Your task to perform on an android device: Search for the best fantasy books on Goodreads. Image 0: 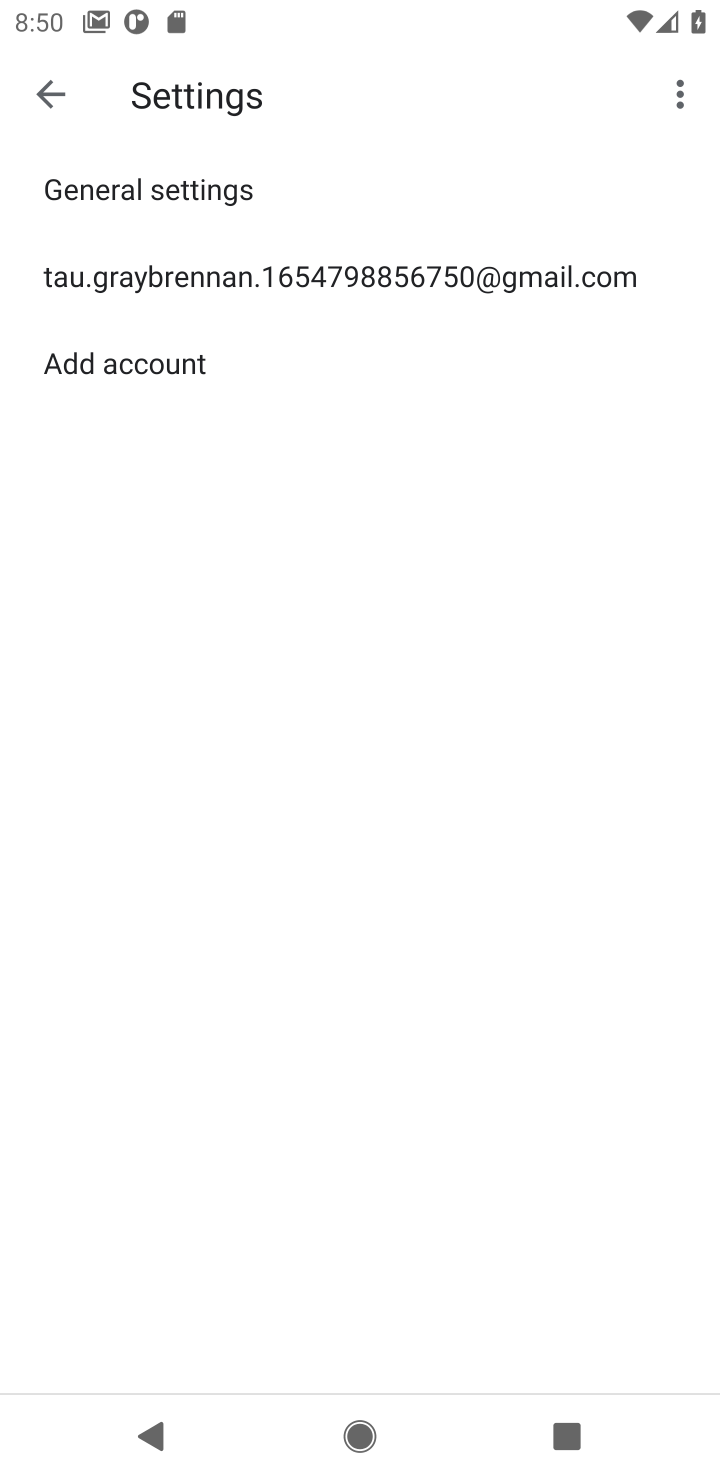
Step 0: press home button
Your task to perform on an android device: Search for the best fantasy books on Goodreads. Image 1: 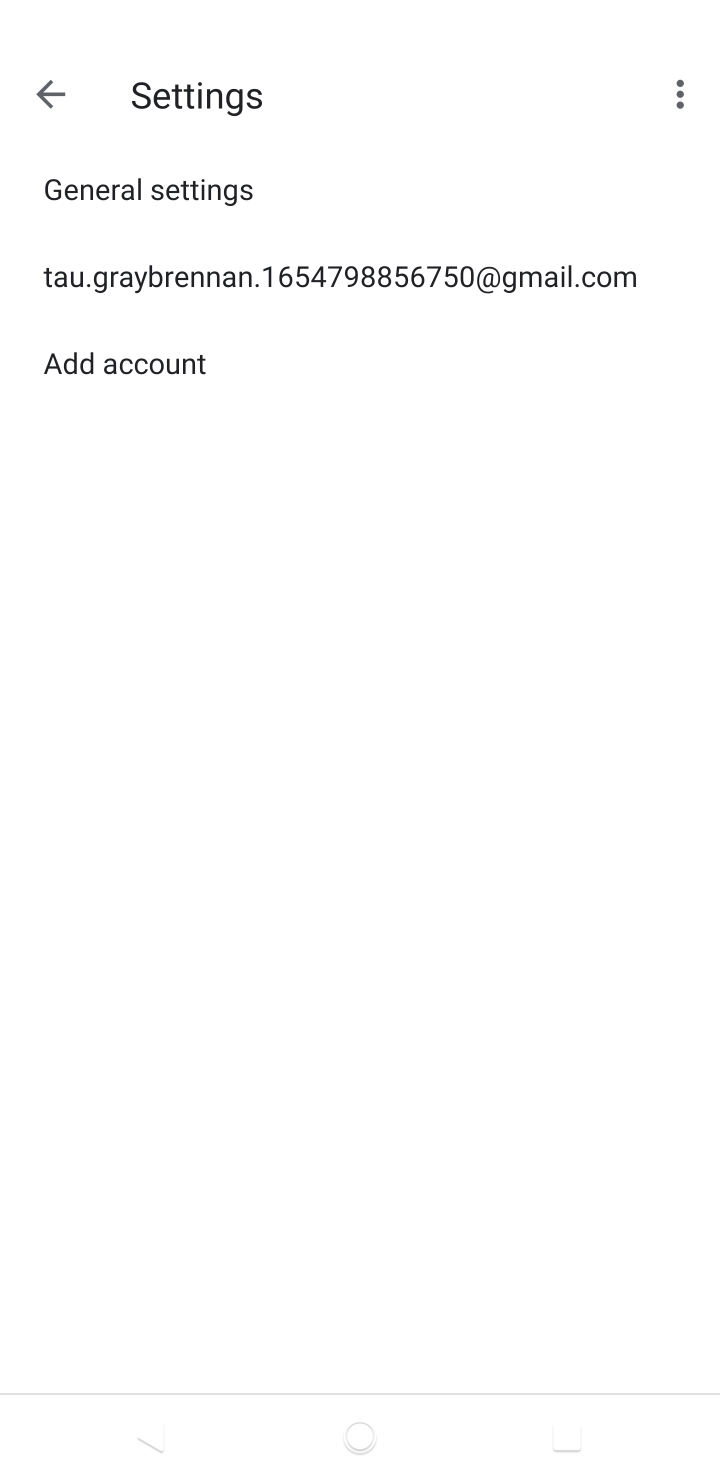
Step 1: press home button
Your task to perform on an android device: Search for the best fantasy books on Goodreads. Image 2: 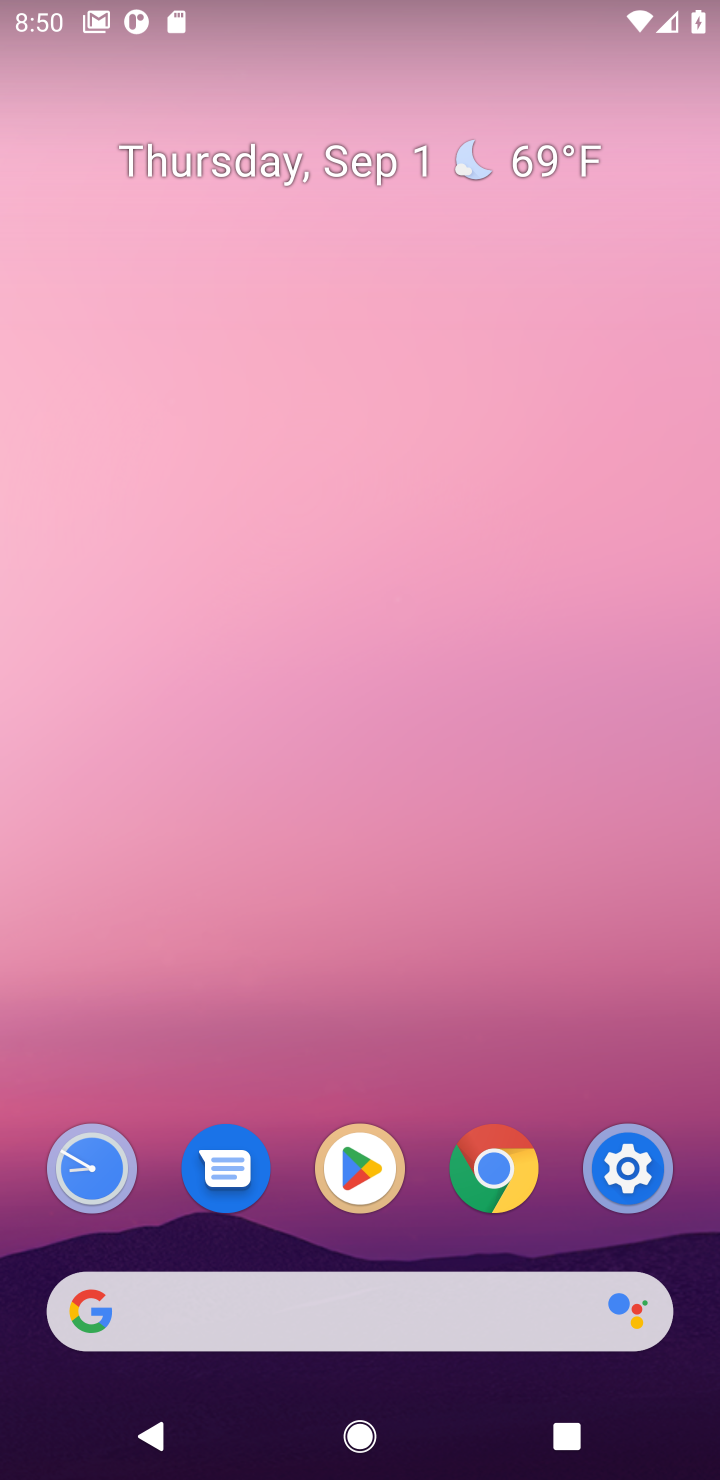
Step 2: click (380, 465)
Your task to perform on an android device: Search for the best fantasy books on Goodreads. Image 3: 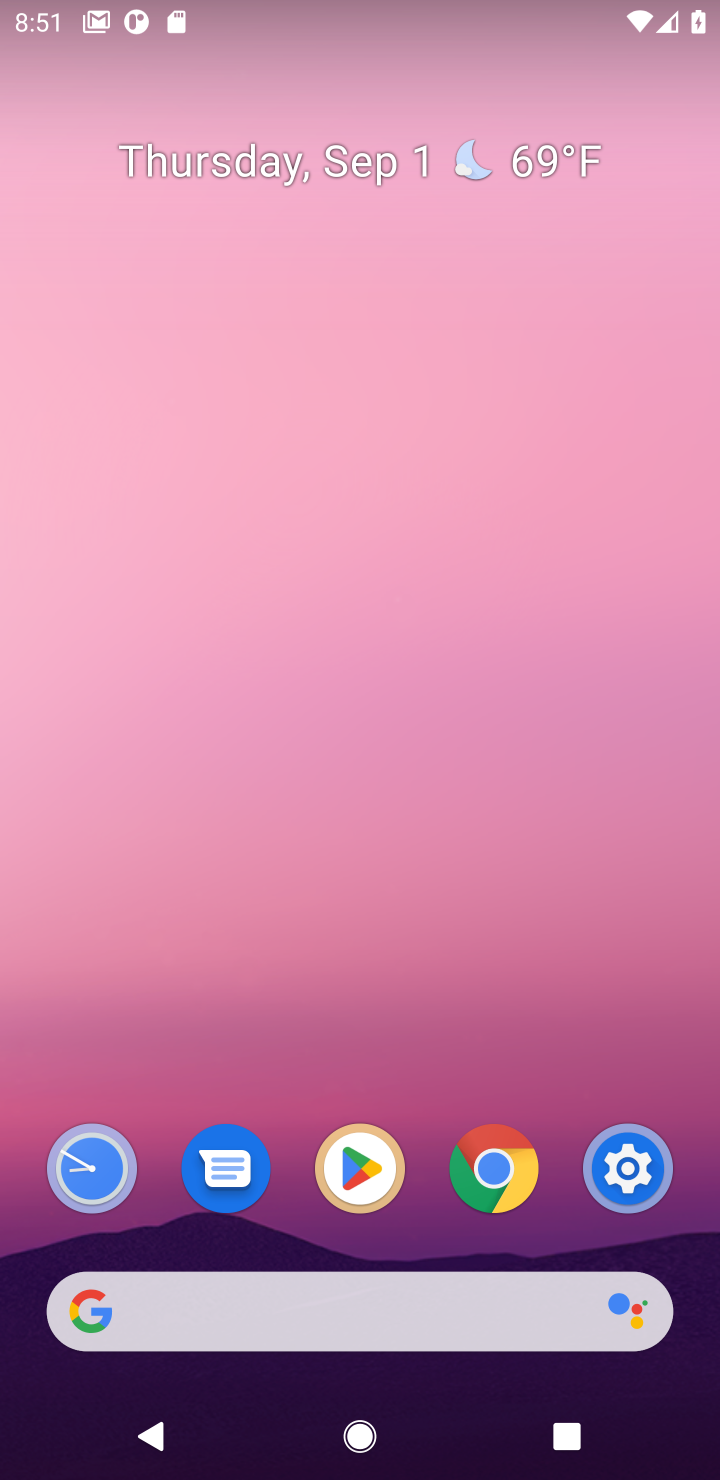
Step 3: click (315, 764)
Your task to perform on an android device: Search for the best fantasy books on Goodreads. Image 4: 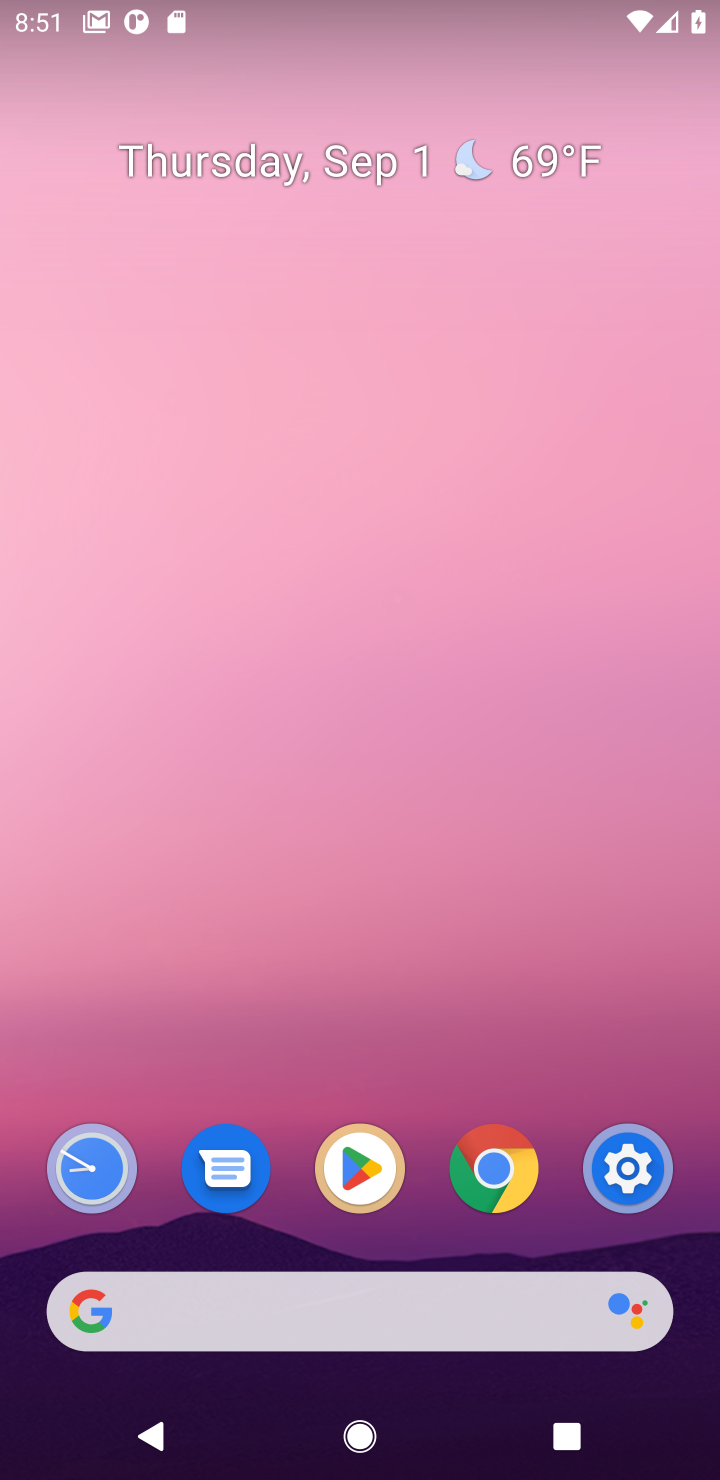
Step 4: drag from (347, 275) to (442, 290)
Your task to perform on an android device: Search for the best fantasy books on Goodreads. Image 5: 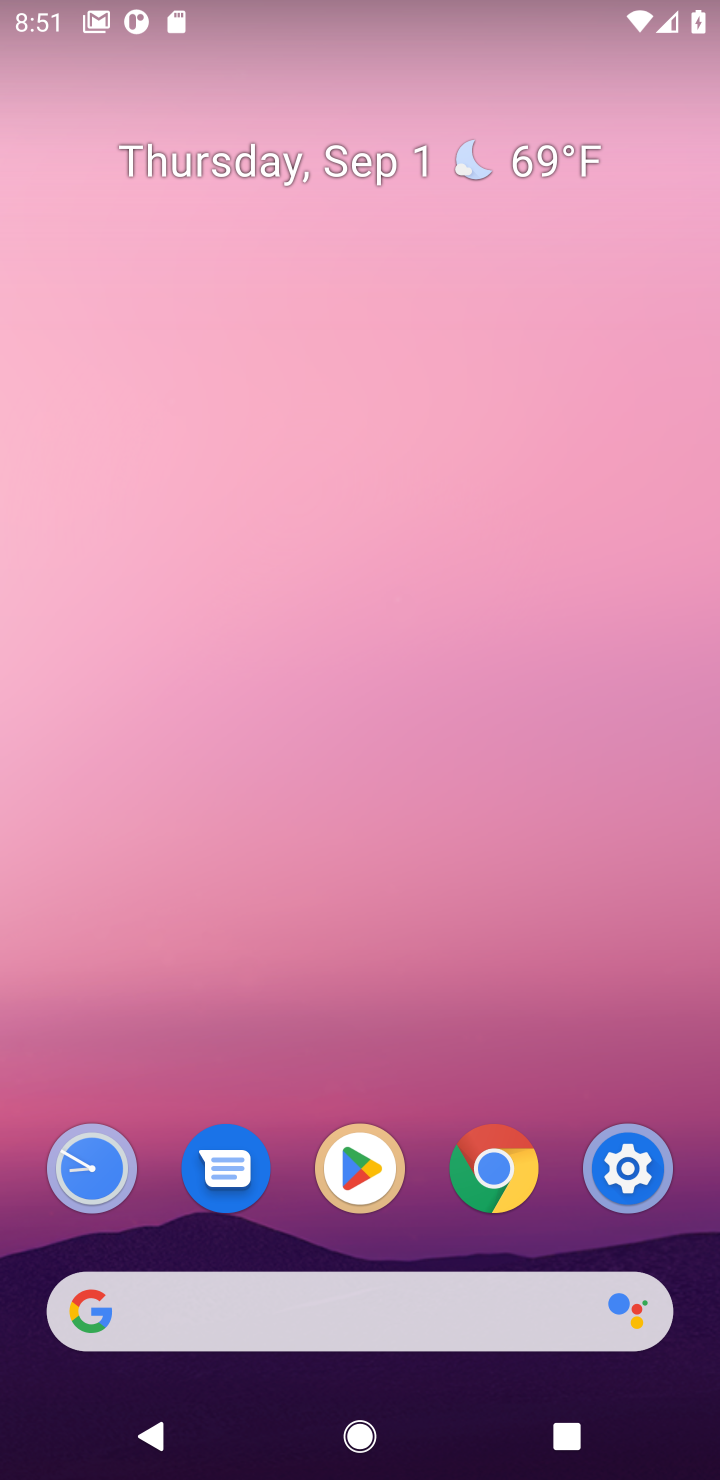
Step 5: click (359, 526)
Your task to perform on an android device: Search for the best fantasy books on Goodreads. Image 6: 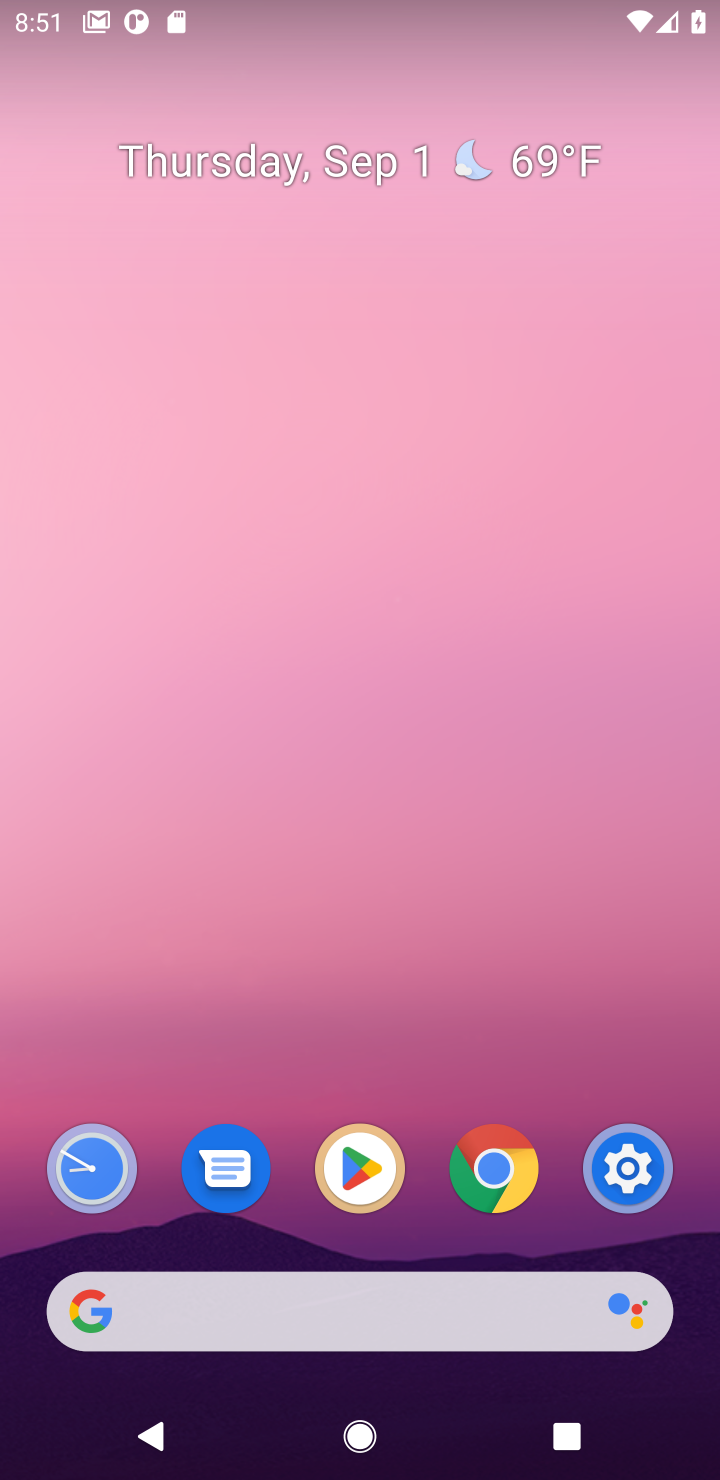
Step 6: drag from (293, 1225) to (380, 359)
Your task to perform on an android device: Search for the best fantasy books on Goodreads. Image 7: 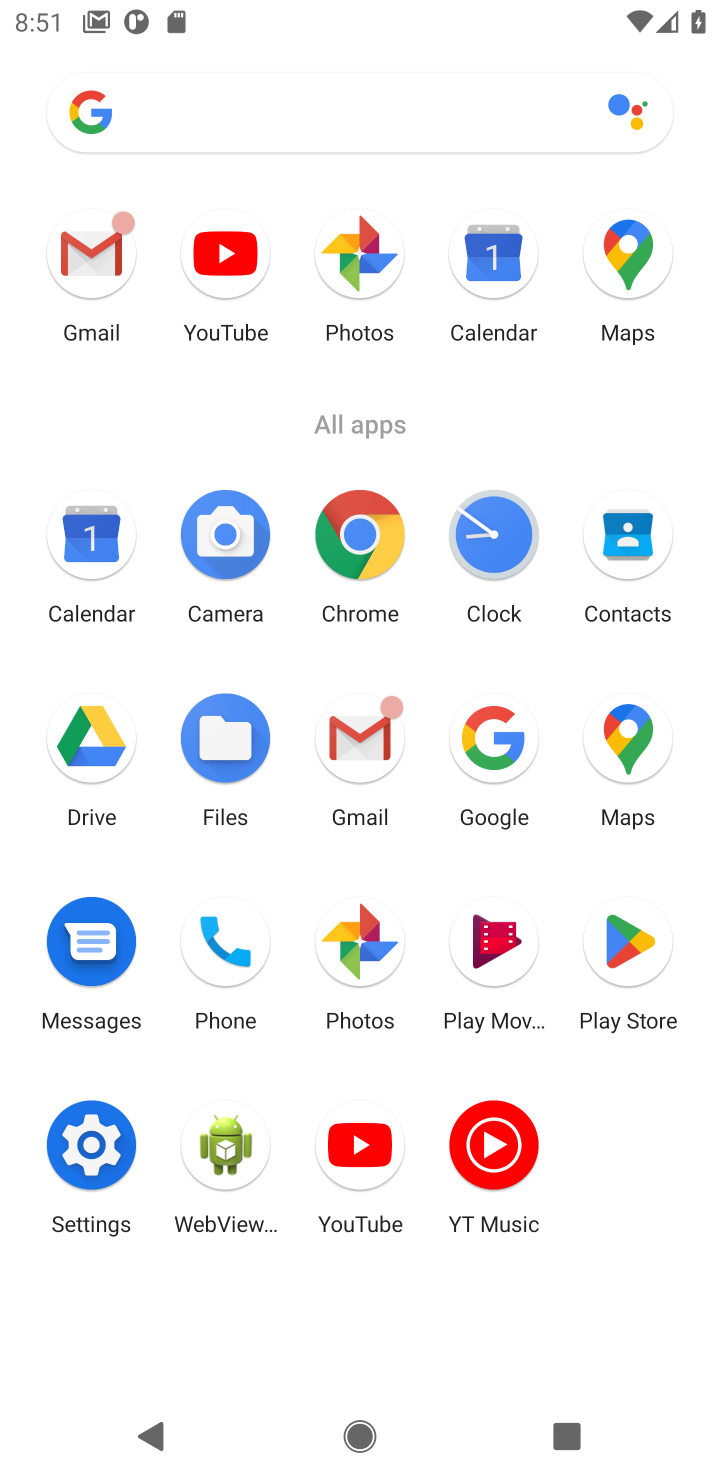
Step 7: click (492, 716)
Your task to perform on an android device: Search for the best fantasy books on Goodreads. Image 8: 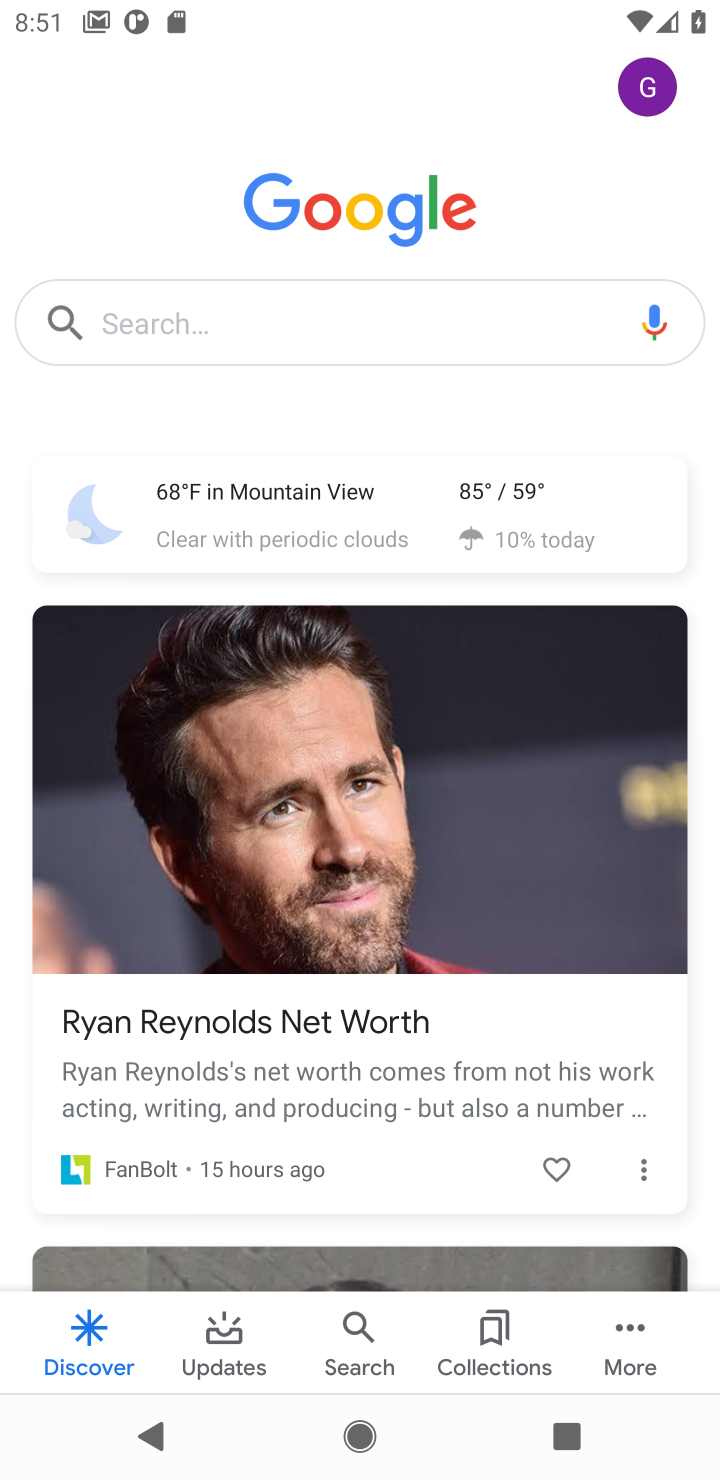
Step 8: click (233, 325)
Your task to perform on an android device: Search for the best fantasy books on Goodreads. Image 9: 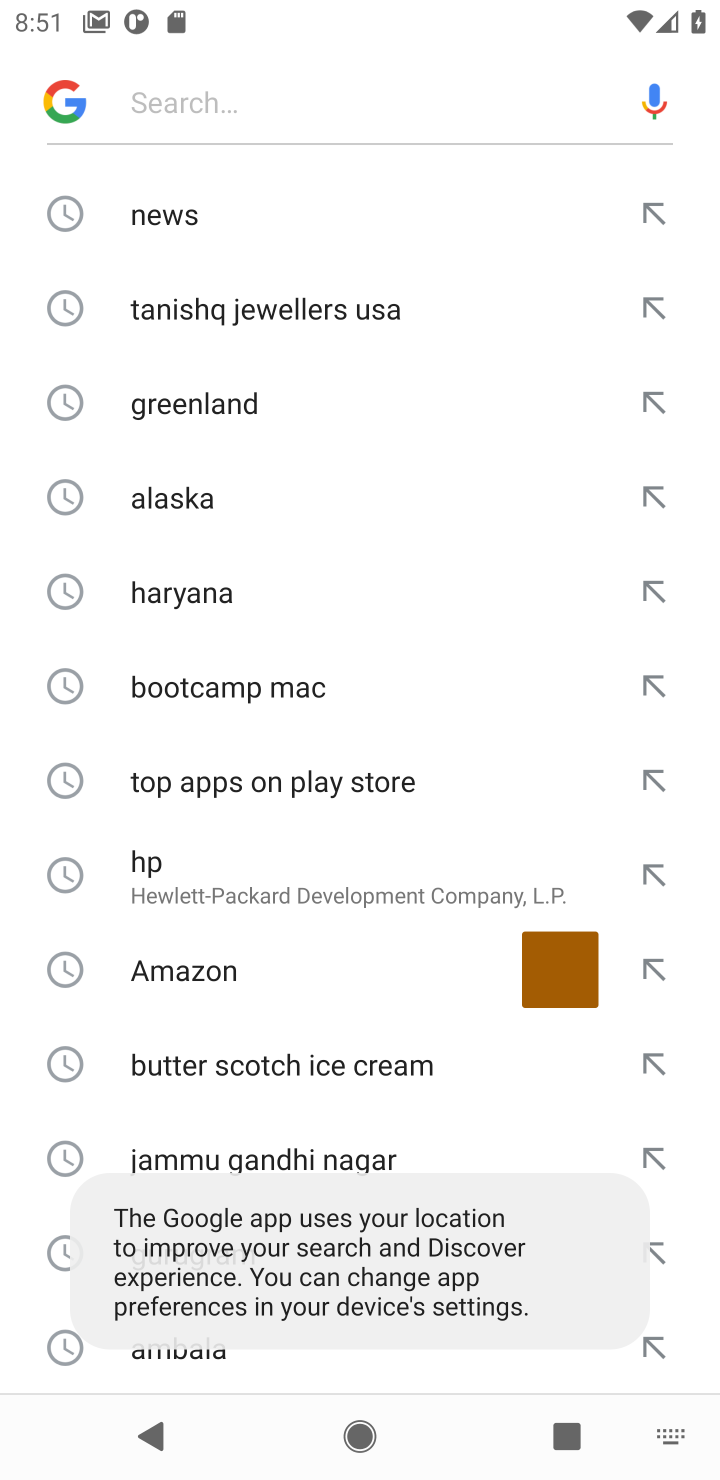
Step 9: type " Goodreads "
Your task to perform on an android device: Search for the best fantasy books on Goodreads. Image 10: 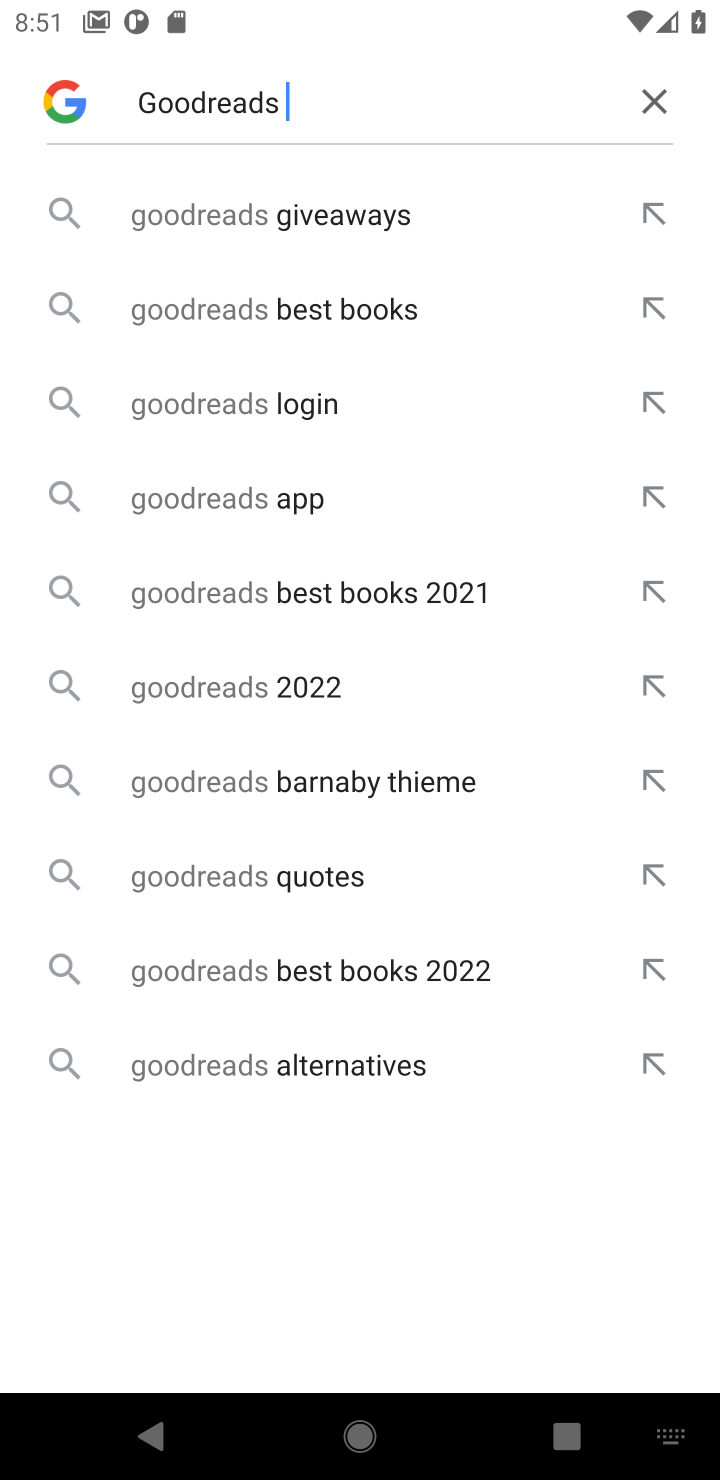
Step 10: click (320, 321)
Your task to perform on an android device: Search for the best fantasy books on Goodreads. Image 11: 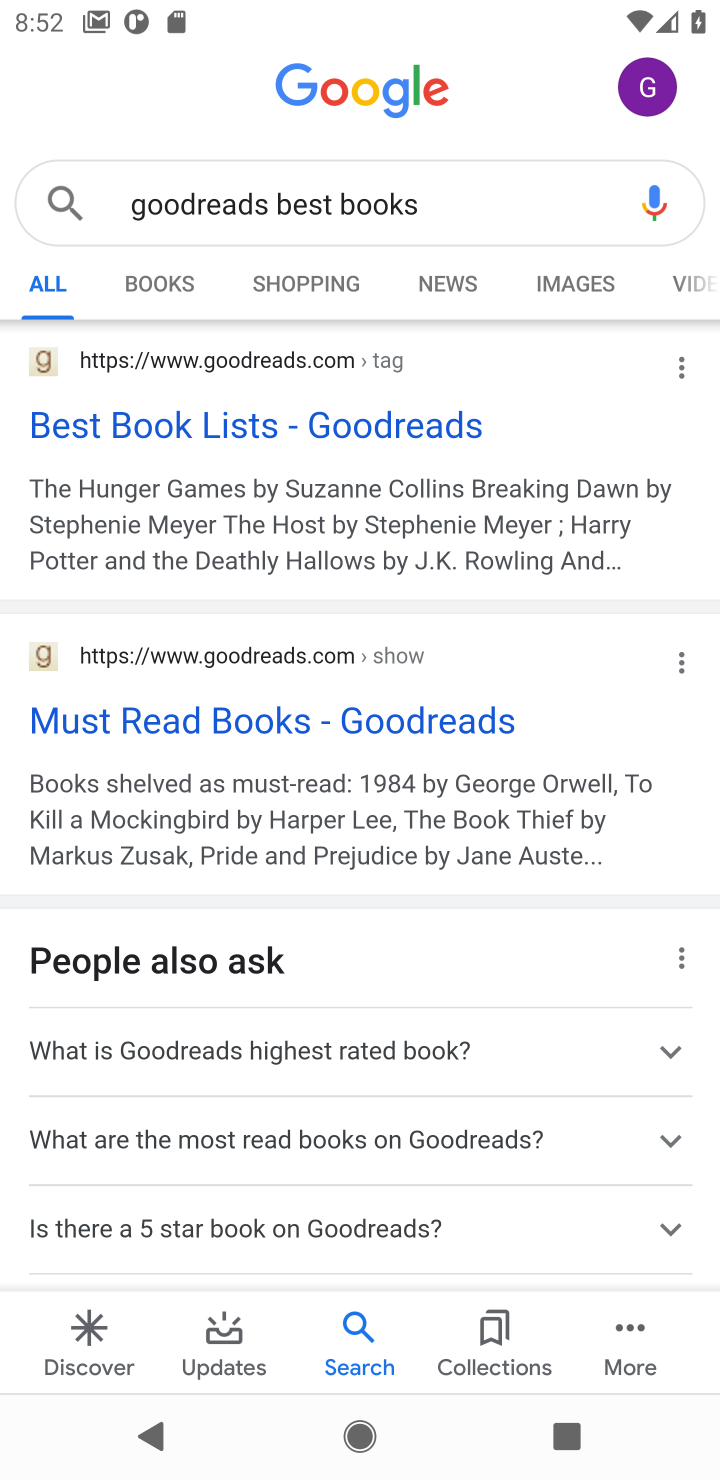
Step 11: click (278, 410)
Your task to perform on an android device: Search for the best fantasy books on Goodreads. Image 12: 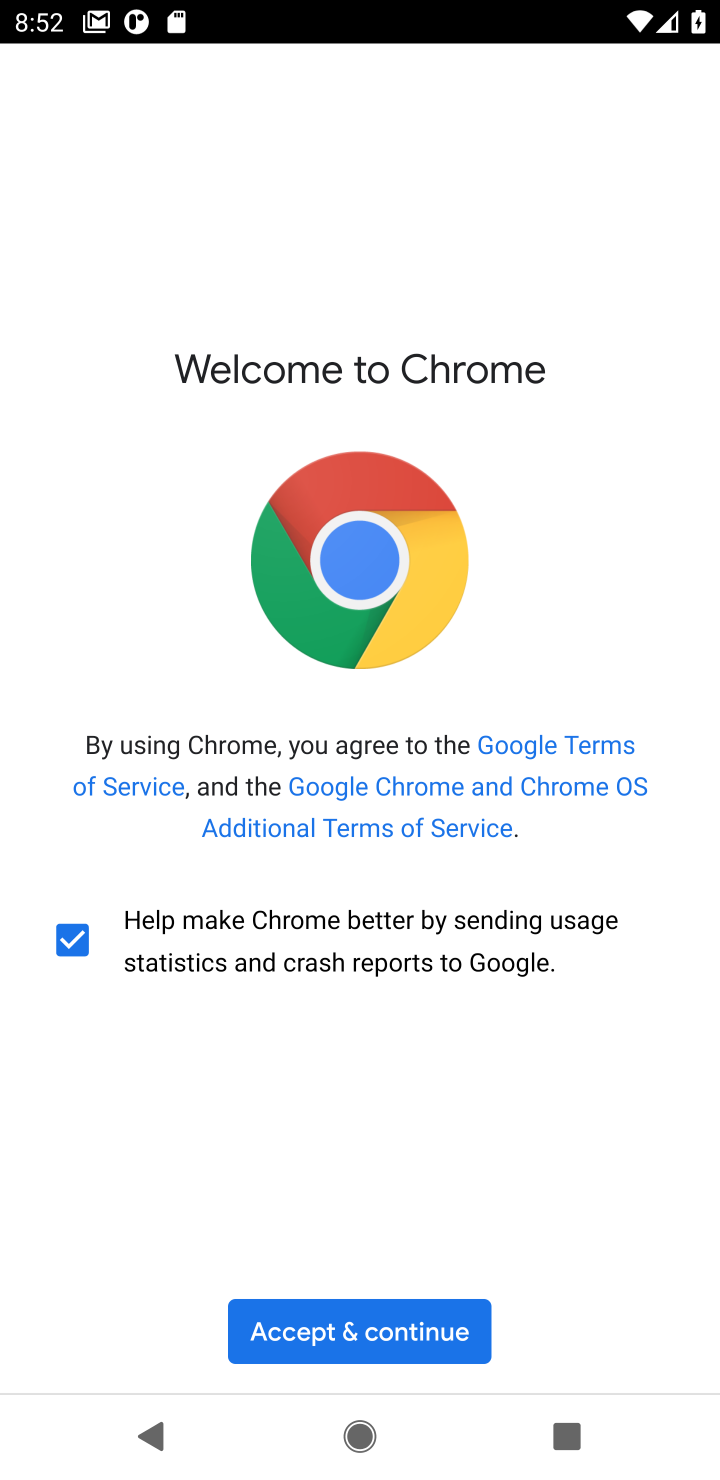
Step 12: click (359, 1339)
Your task to perform on an android device: Search for the best fantasy books on Goodreads. Image 13: 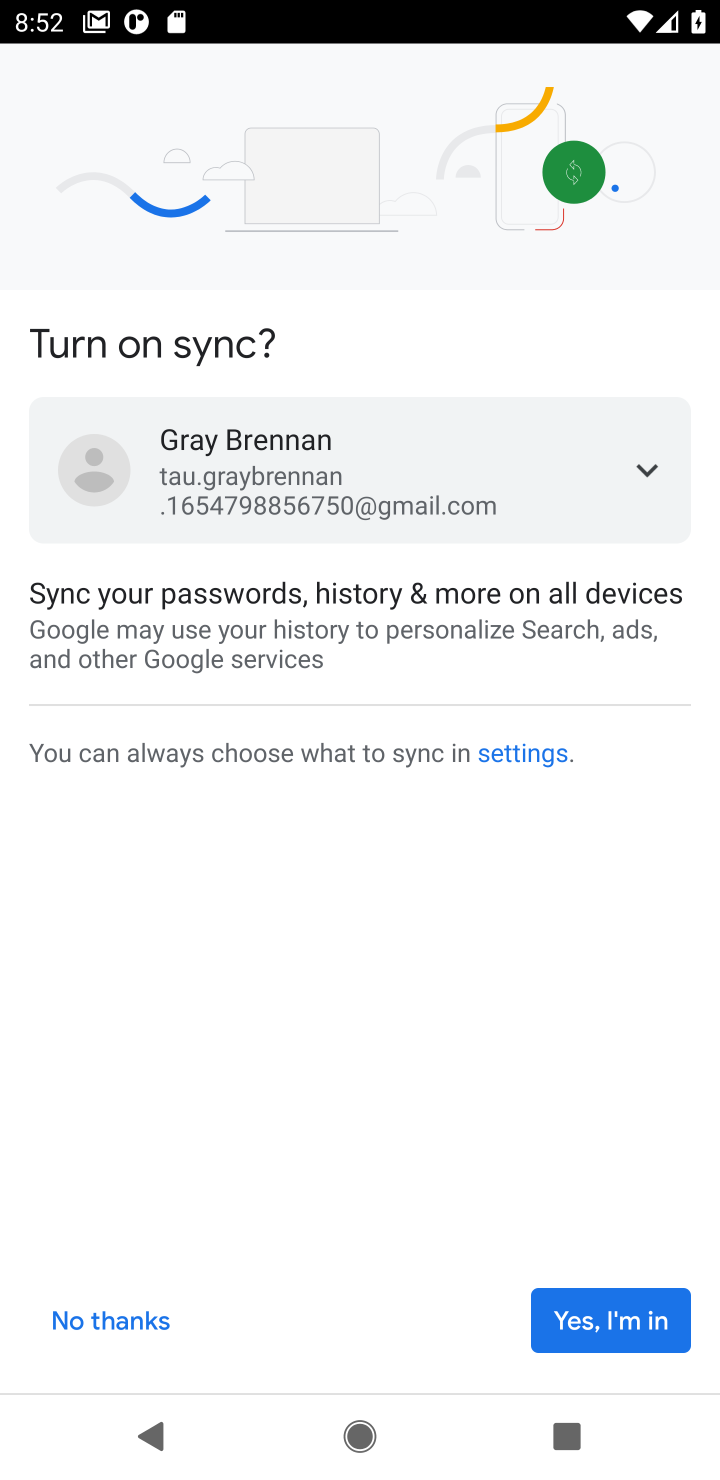
Step 13: click (607, 1313)
Your task to perform on an android device: Search for the best fantasy books on Goodreads. Image 14: 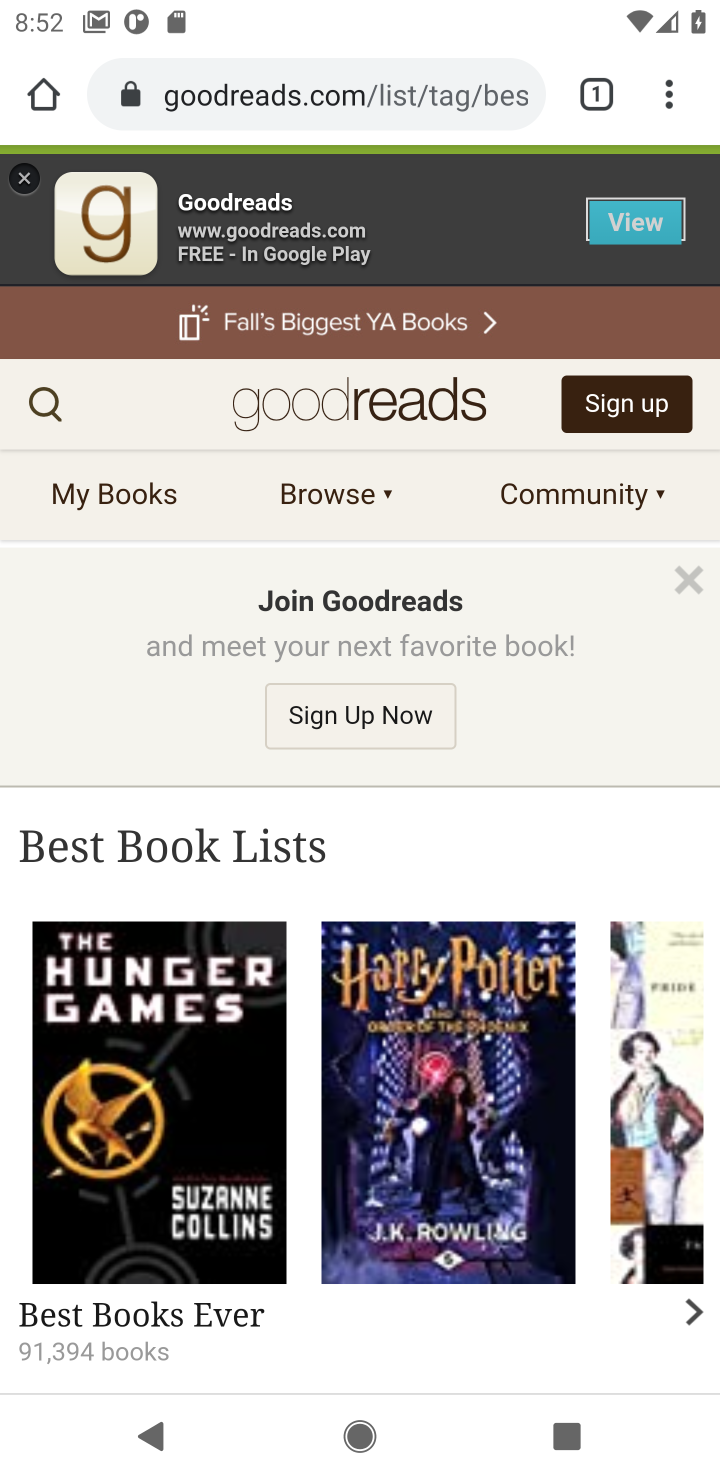
Step 14: click (696, 584)
Your task to perform on an android device: Search for the best fantasy books on Goodreads. Image 15: 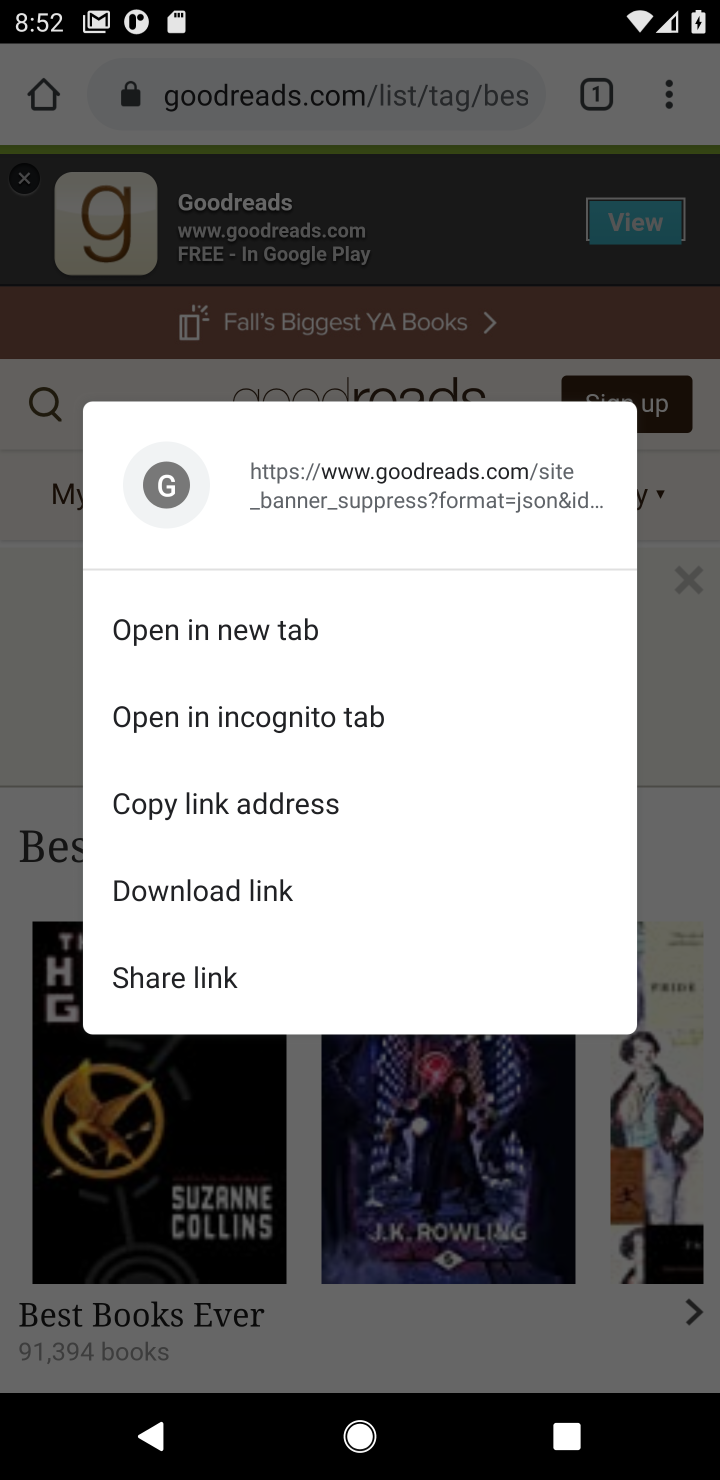
Step 15: click (17, 533)
Your task to perform on an android device: Search for the best fantasy books on Goodreads. Image 16: 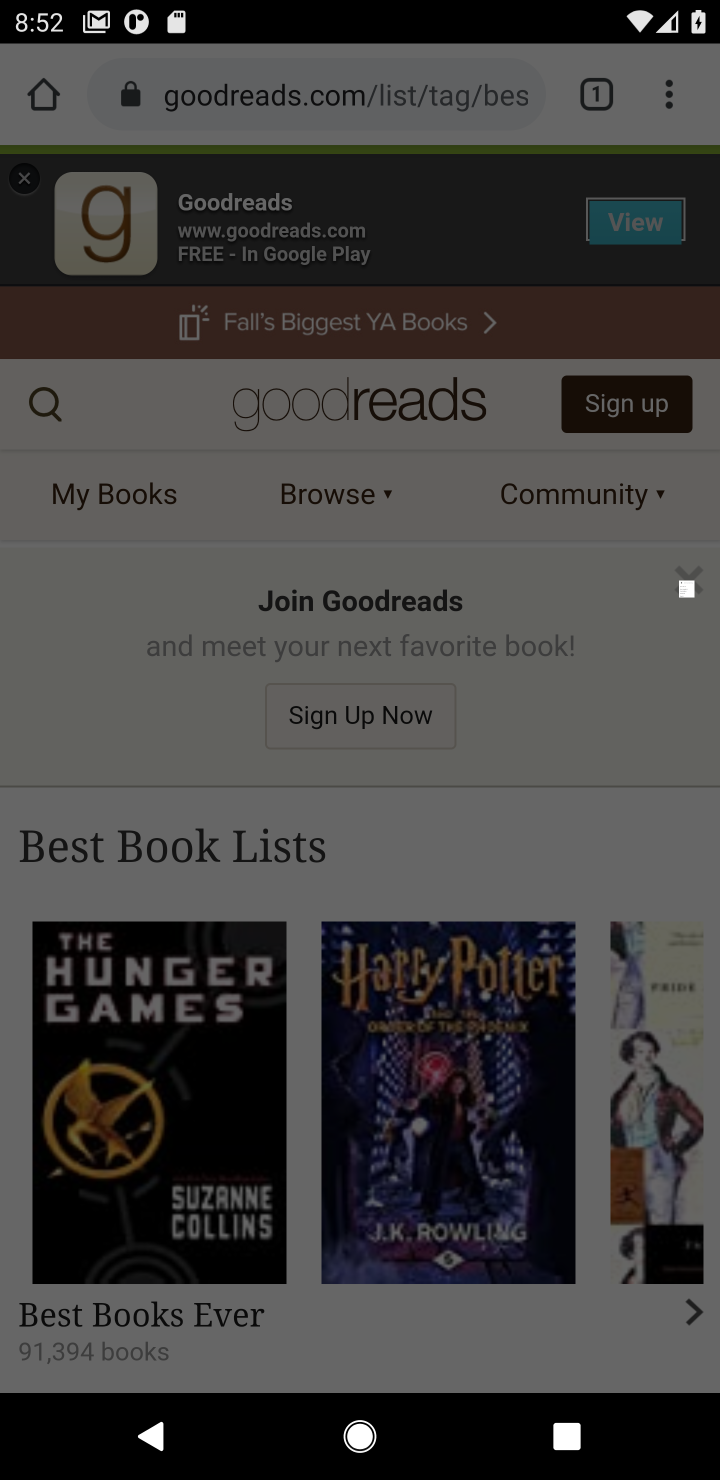
Step 16: click (17, 536)
Your task to perform on an android device: Search for the best fantasy books on Goodreads. Image 17: 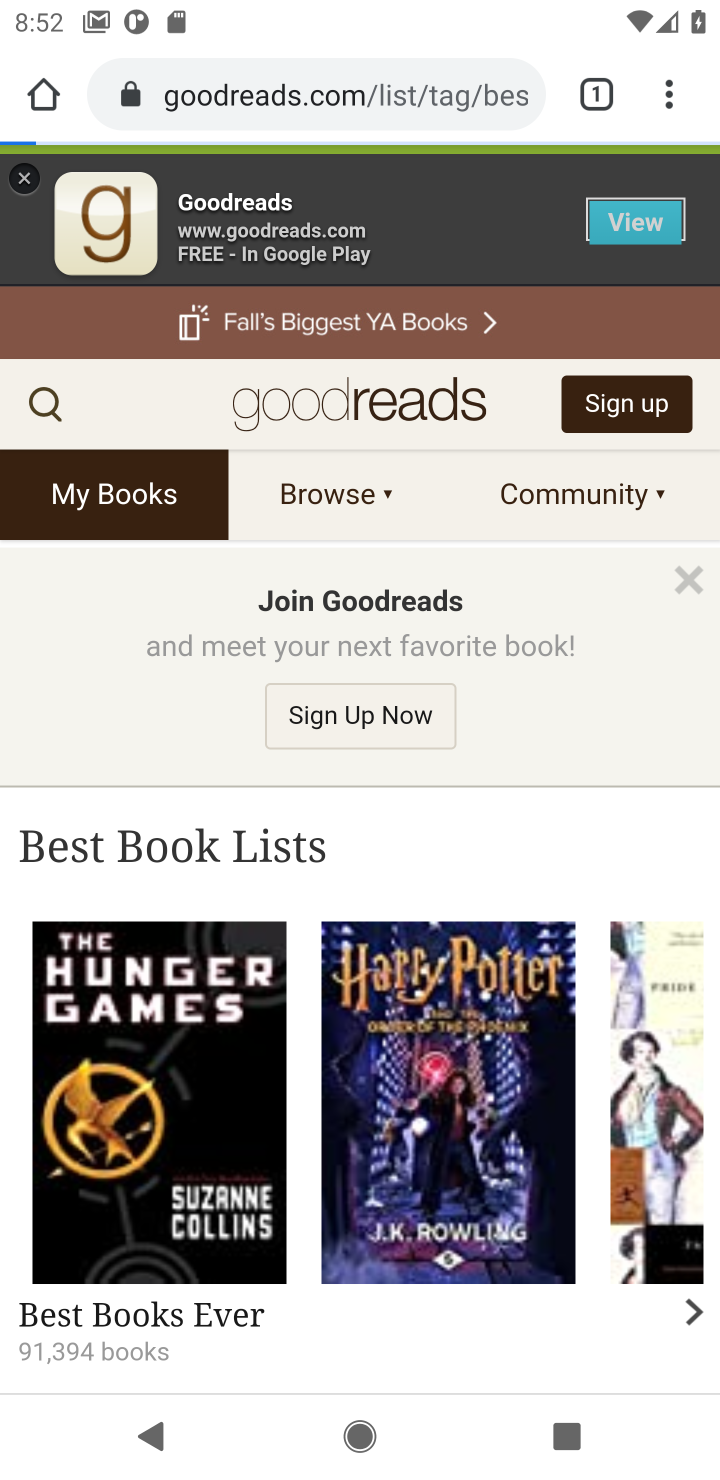
Step 17: click (49, 415)
Your task to perform on an android device: Search for the best fantasy books on Goodreads. Image 18: 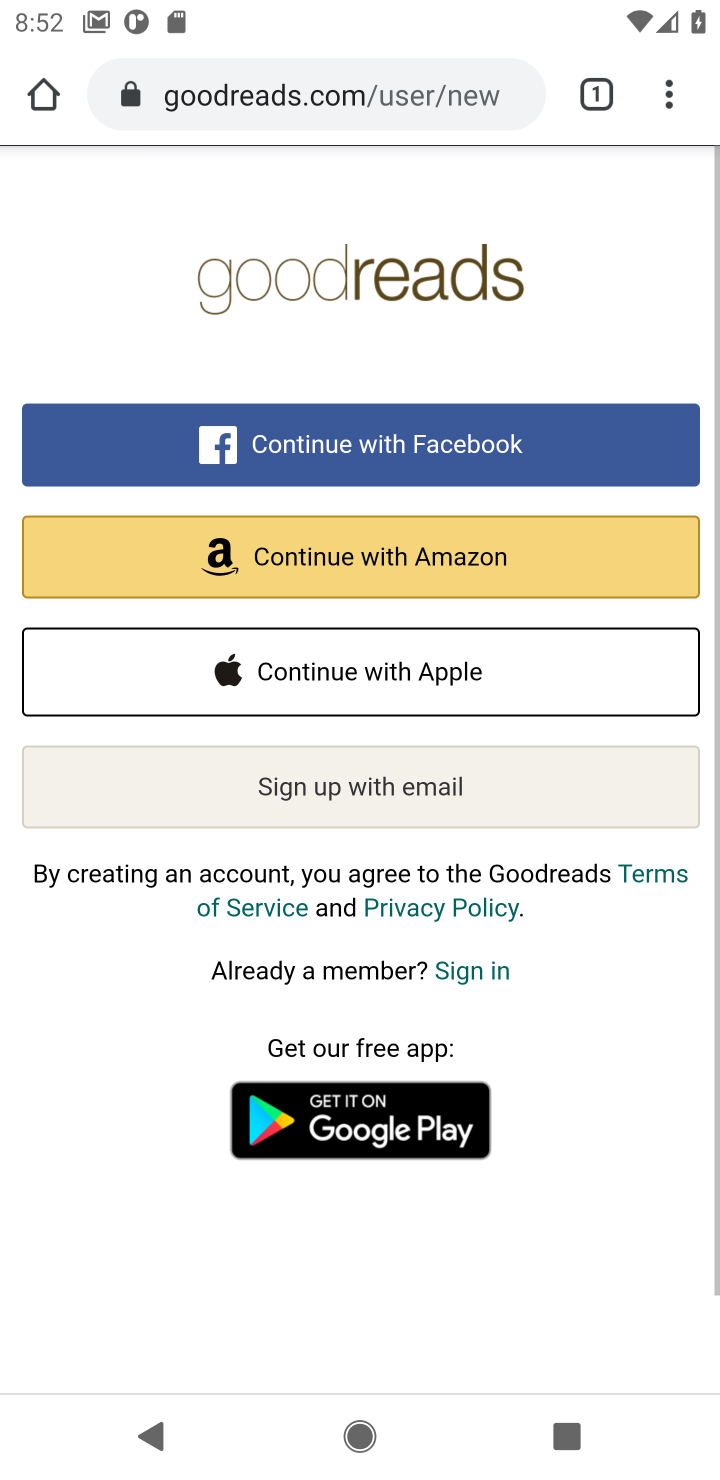
Step 18: click (49, 407)
Your task to perform on an android device: Search for the best fantasy books on Goodreads. Image 19: 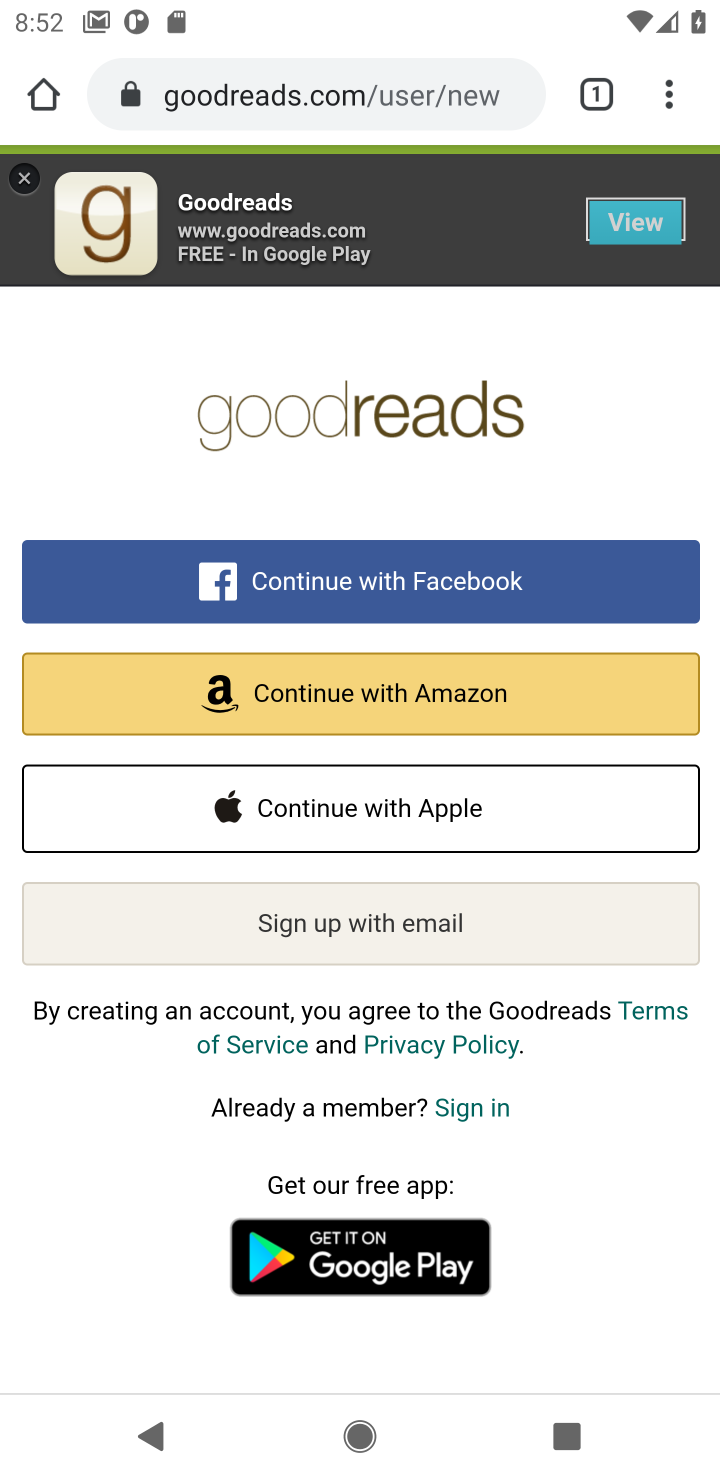
Step 19: click (34, 180)
Your task to perform on an android device: Search for the best fantasy books on Goodreads. Image 20: 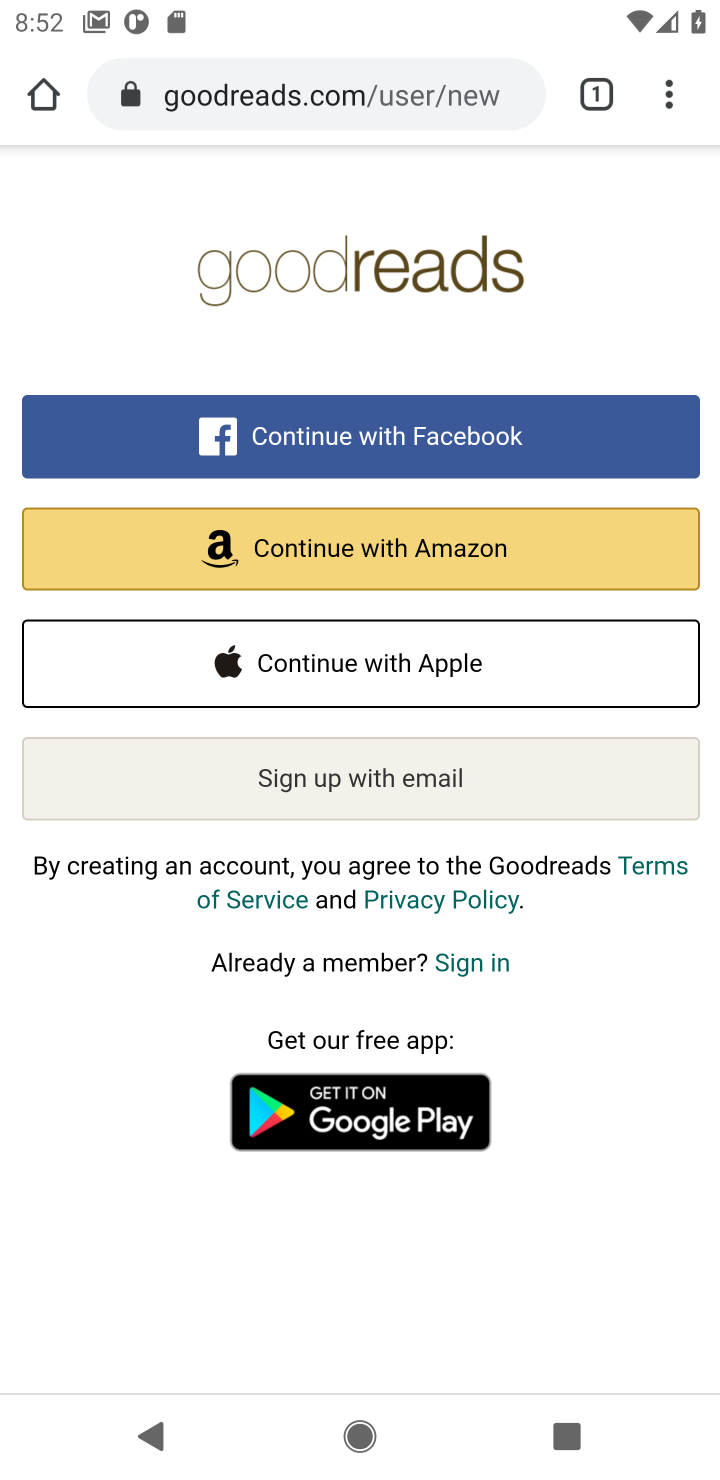
Step 20: press back button
Your task to perform on an android device: Search for the best fantasy books on Goodreads. Image 21: 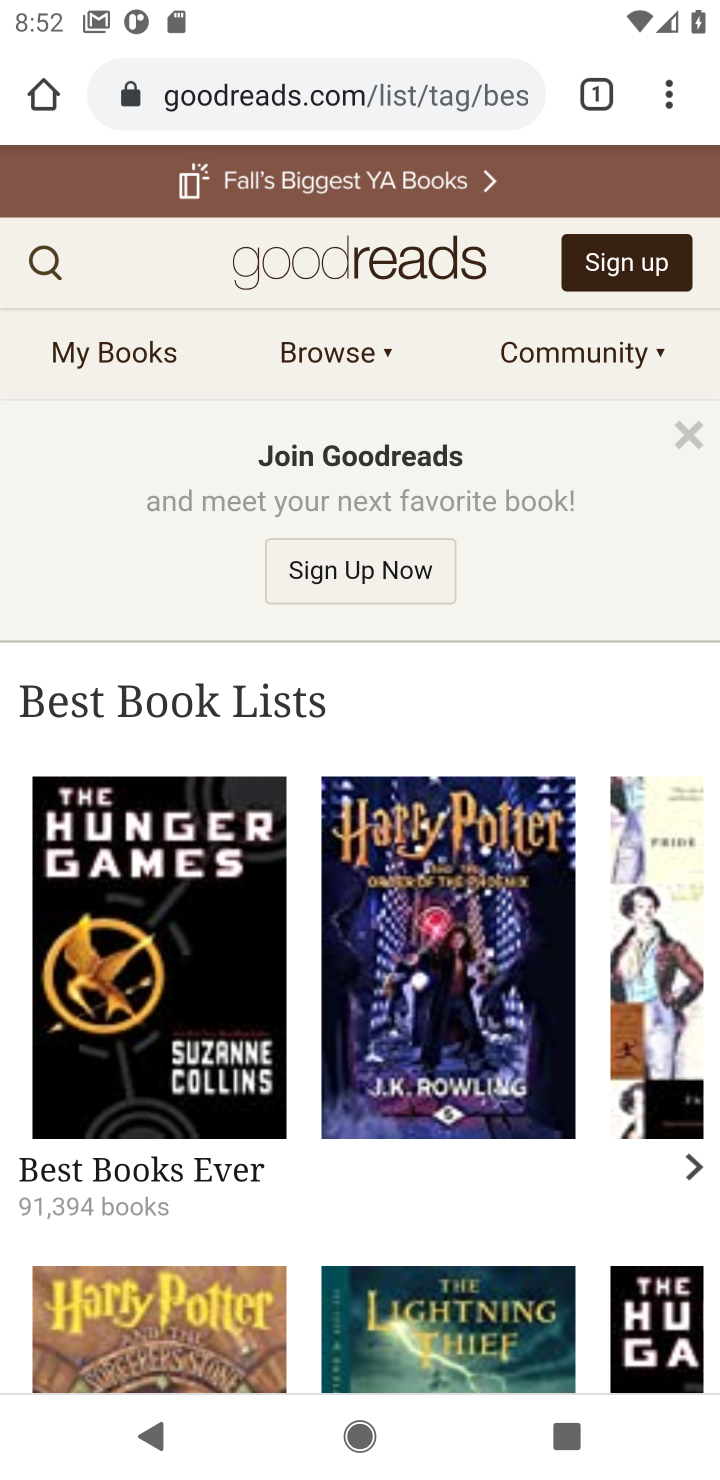
Step 21: click (32, 259)
Your task to perform on an android device: Search for the best fantasy books on Goodreads. Image 22: 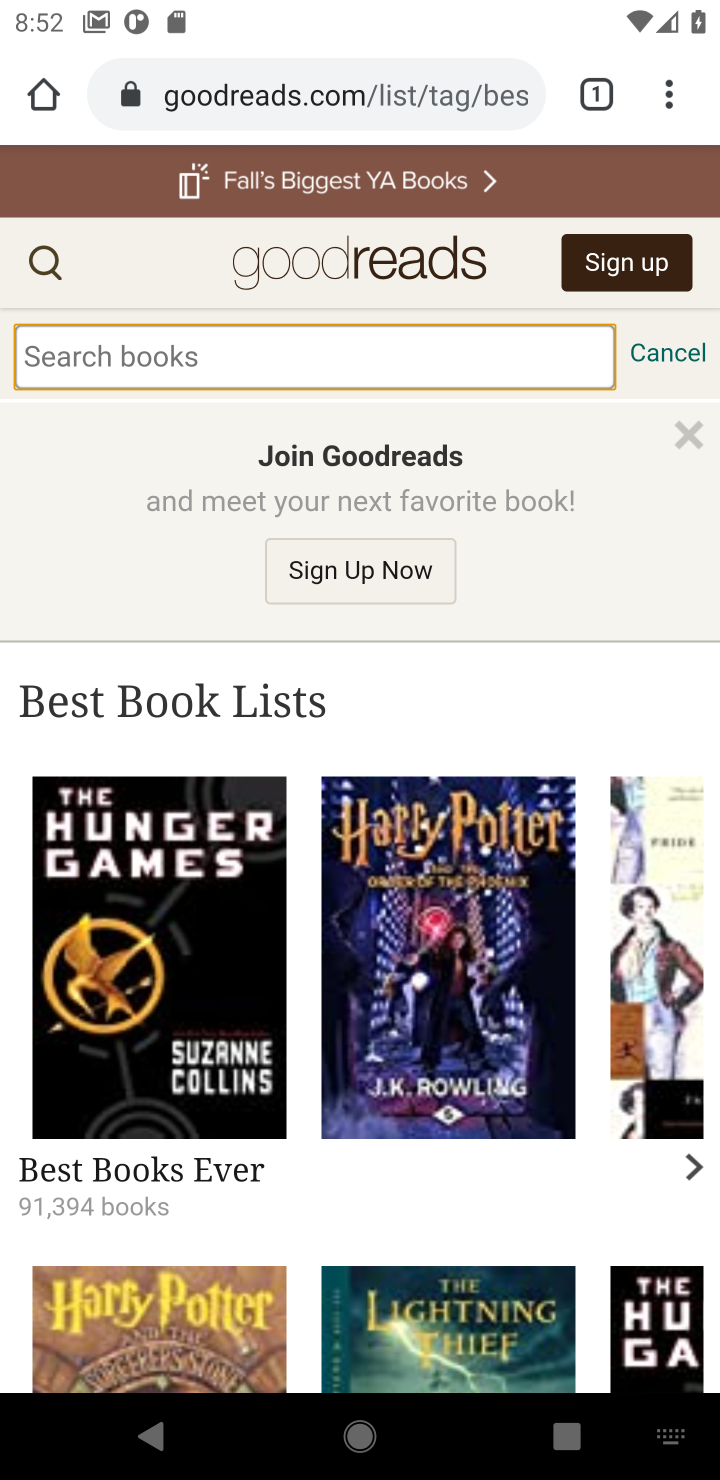
Step 22: click (342, 351)
Your task to perform on an android device: Search for the best fantasy books on Goodreads. Image 23: 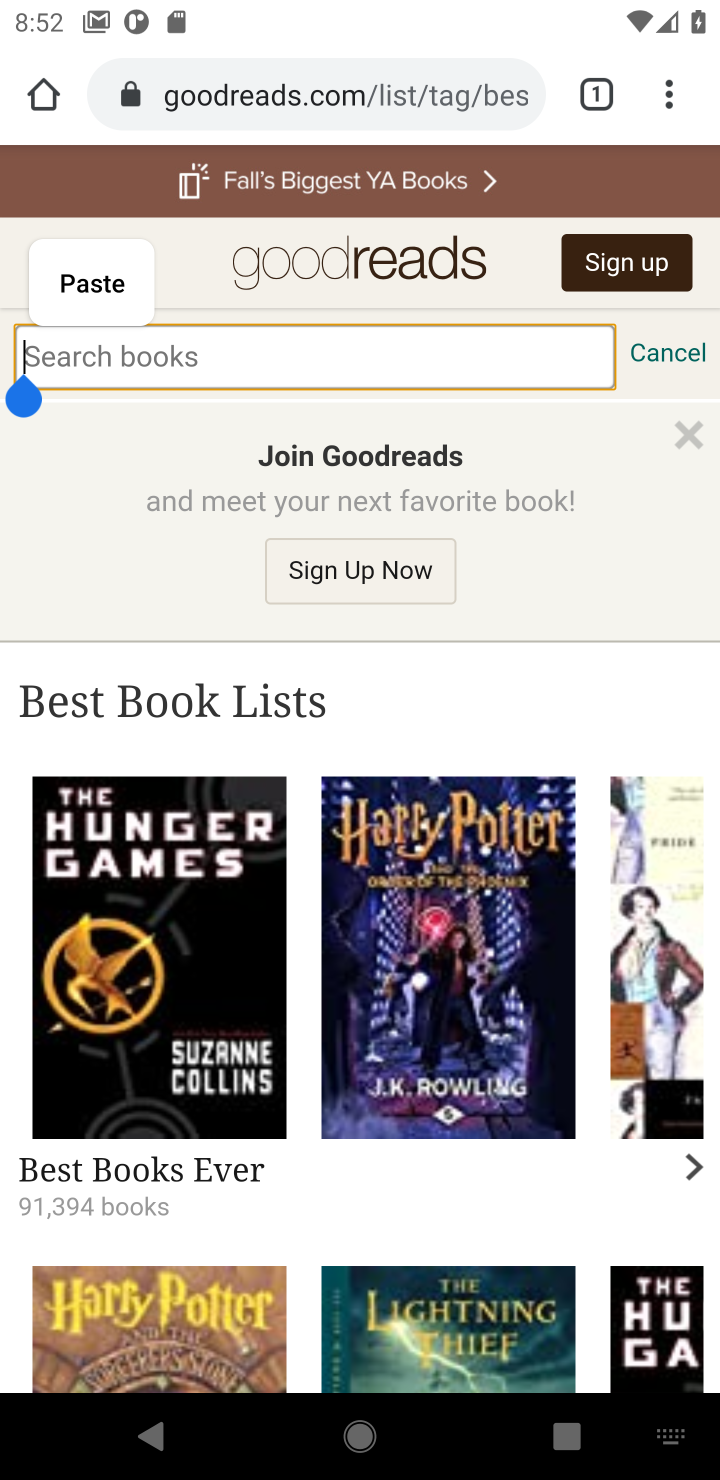
Step 23: type "he best fantasy books  "
Your task to perform on an android device: Search for the best fantasy books on Goodreads. Image 24: 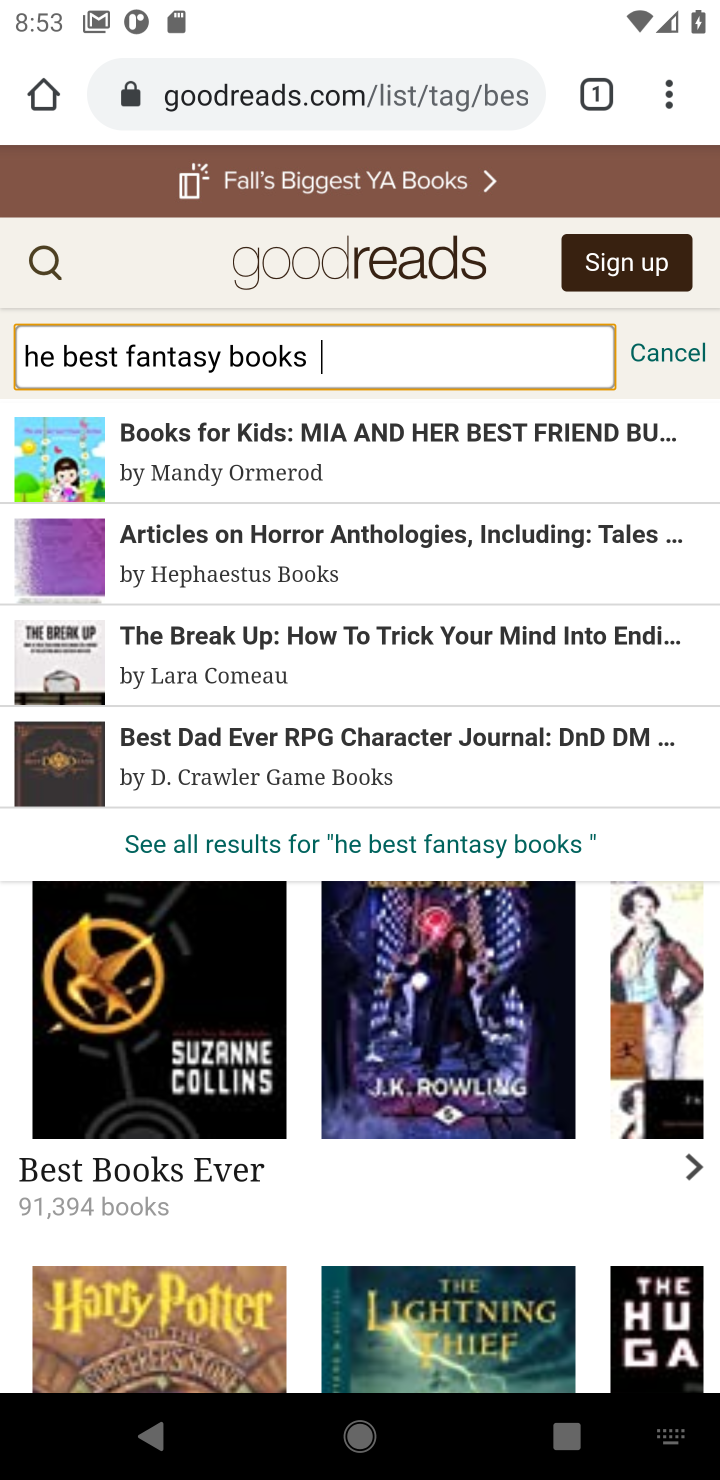
Step 24: click (427, 333)
Your task to perform on an android device: Search for the best fantasy books on Goodreads. Image 25: 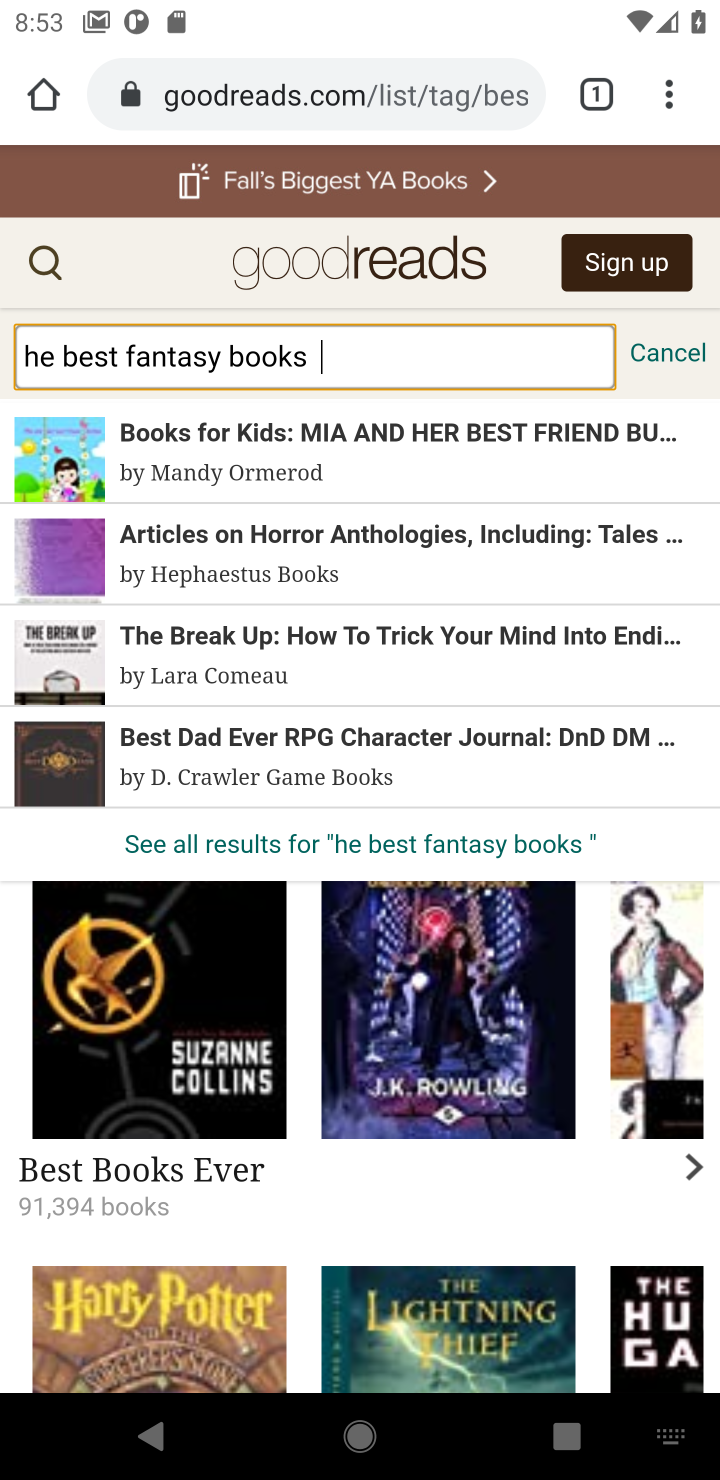
Step 25: drag from (30, 347) to (301, 358)
Your task to perform on an android device: Search for the best fantasy books on Goodreads. Image 26: 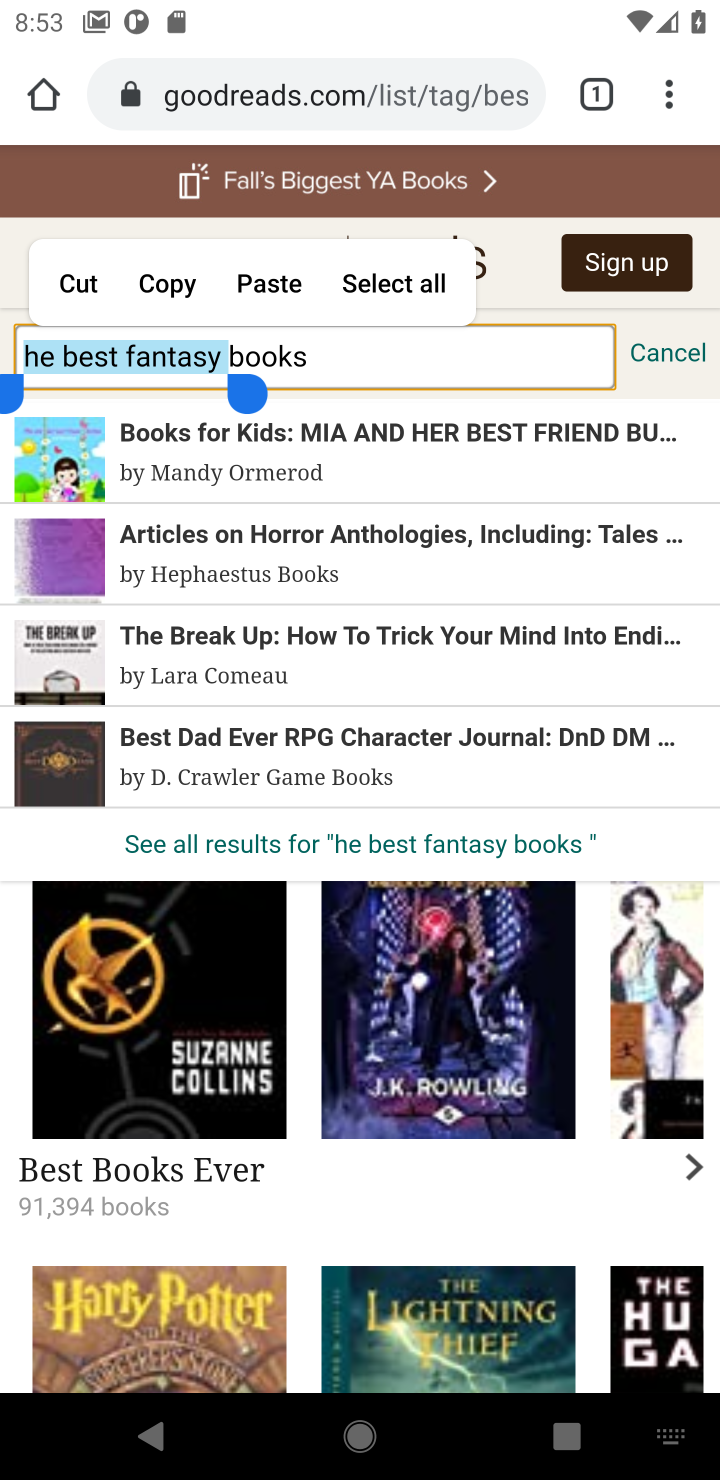
Step 26: drag from (250, 389) to (399, 370)
Your task to perform on an android device: Search for the best fantasy books on Goodreads. Image 27: 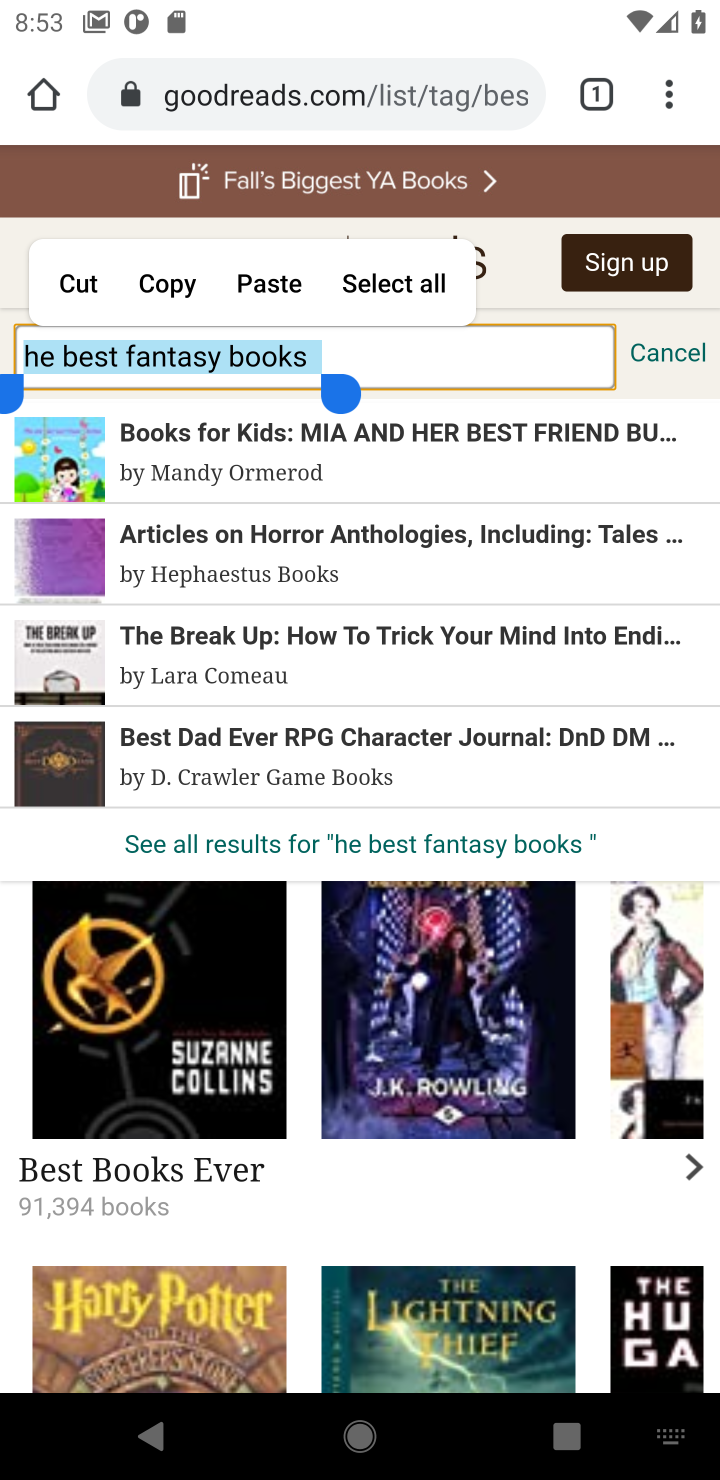
Step 27: click (76, 277)
Your task to perform on an android device: Search for the best fantasy books on Goodreads. Image 28: 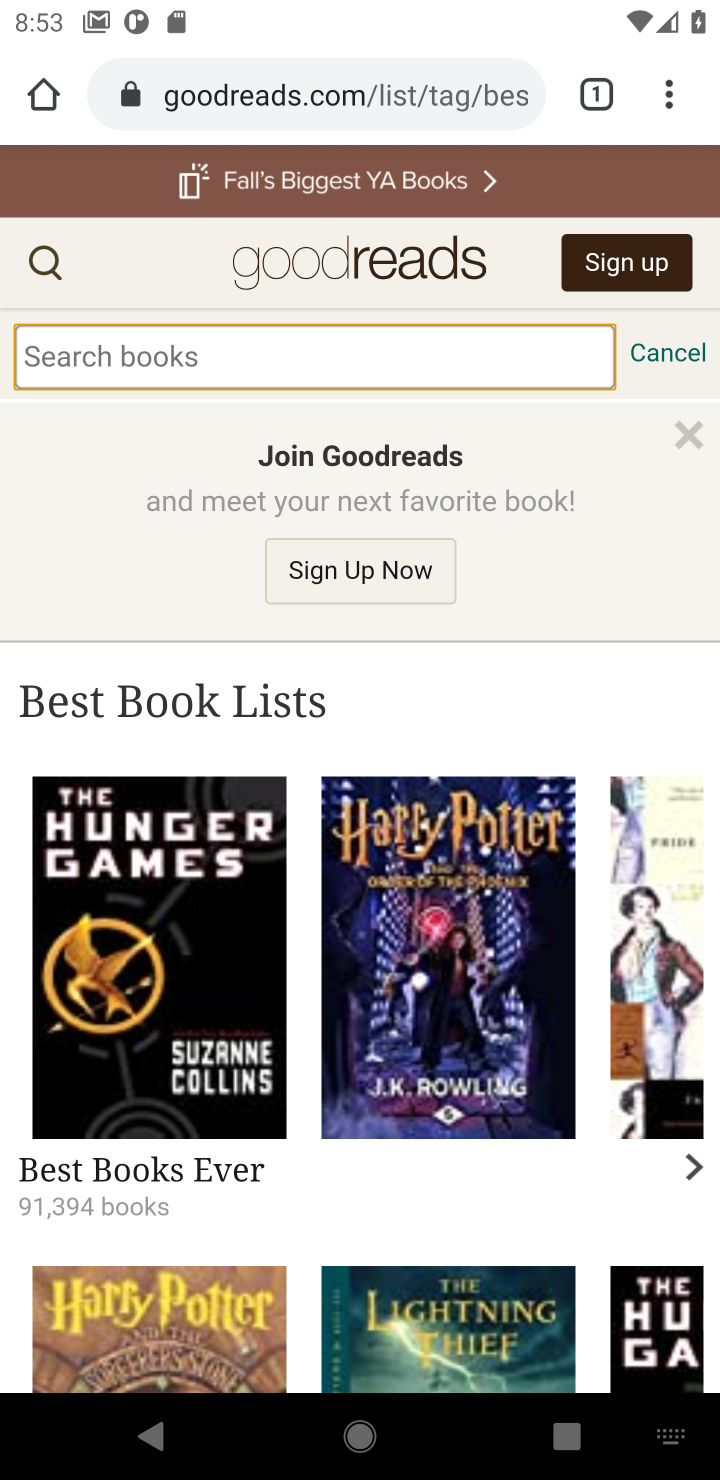
Step 28: click (176, 347)
Your task to perform on an android device: Search for the best fantasy books on Goodreads. Image 29: 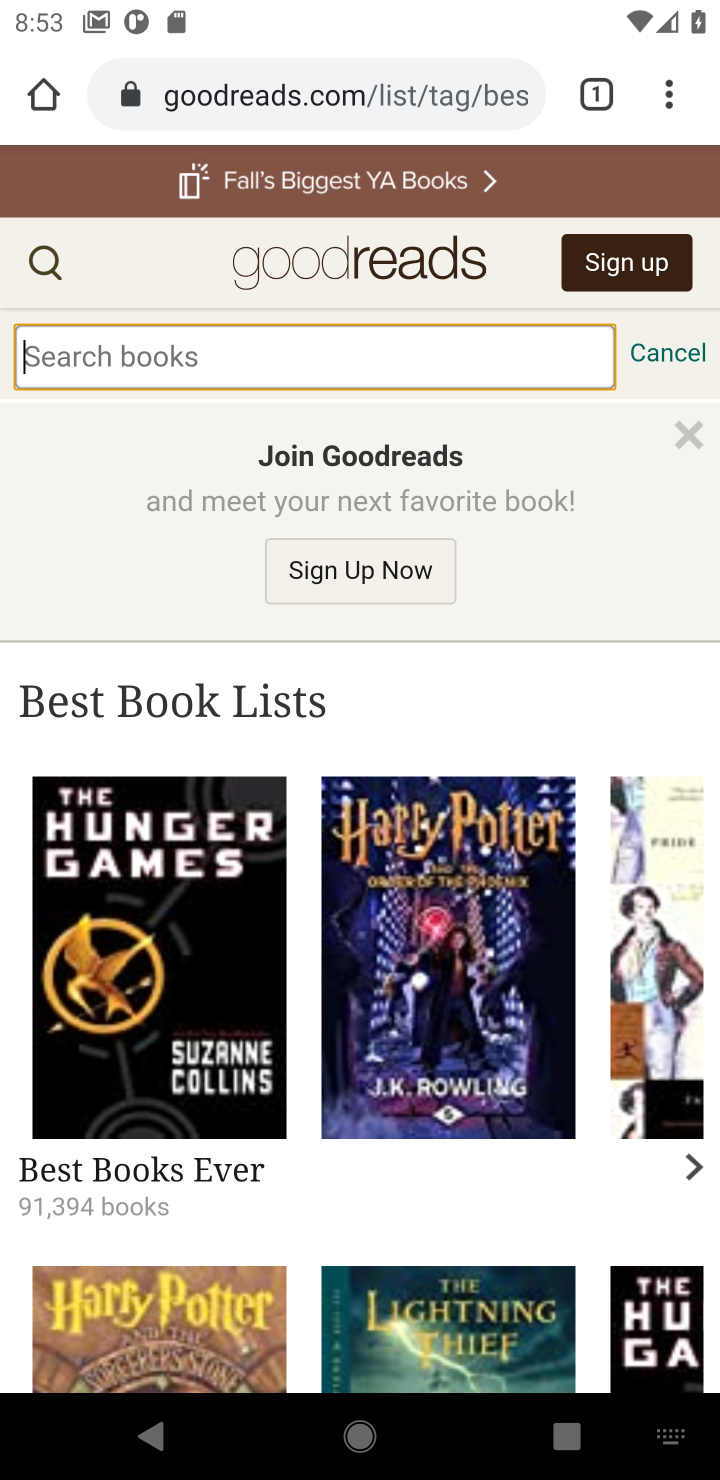
Step 29: type "the best fantasy books on Goodreads "
Your task to perform on an android device: Search for the best fantasy books on Goodreads. Image 30: 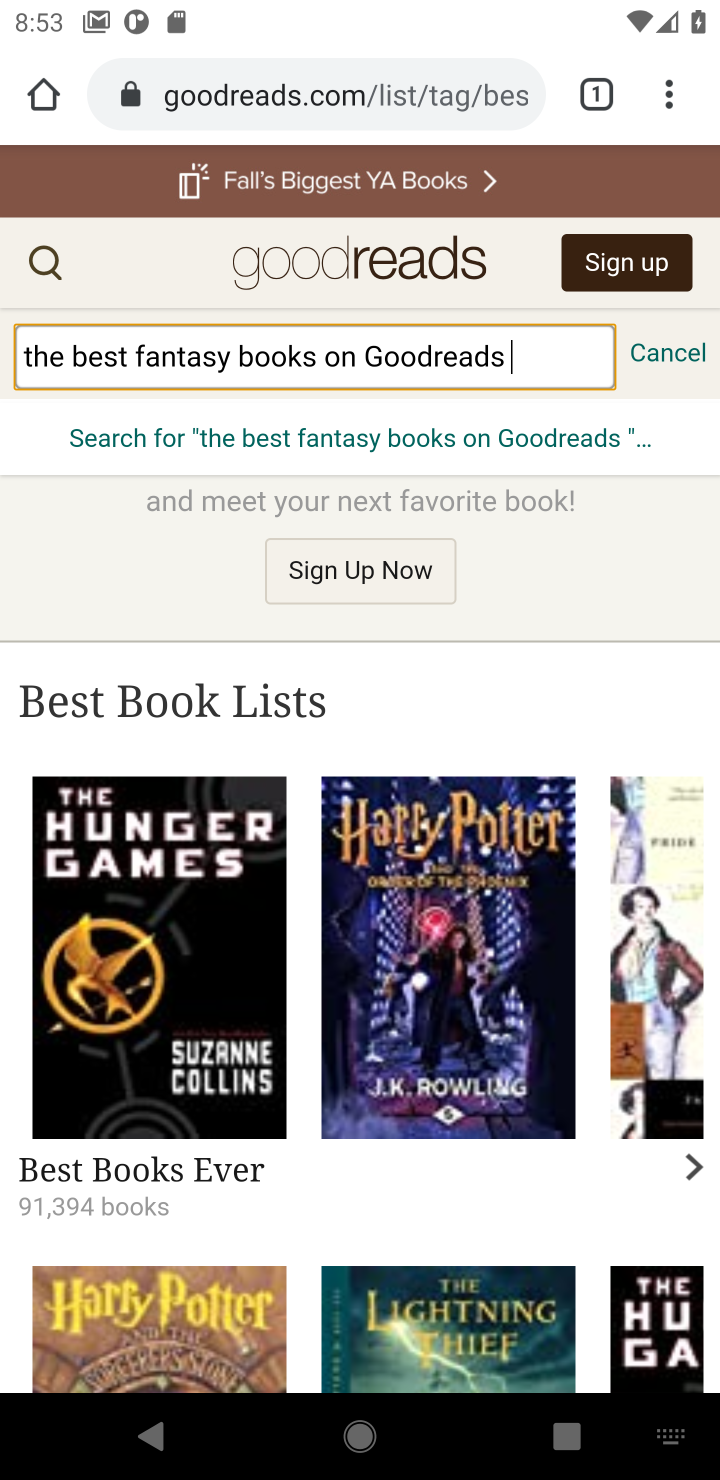
Step 30: click (535, 361)
Your task to perform on an android device: Search for the best fantasy books on Goodreads. Image 31: 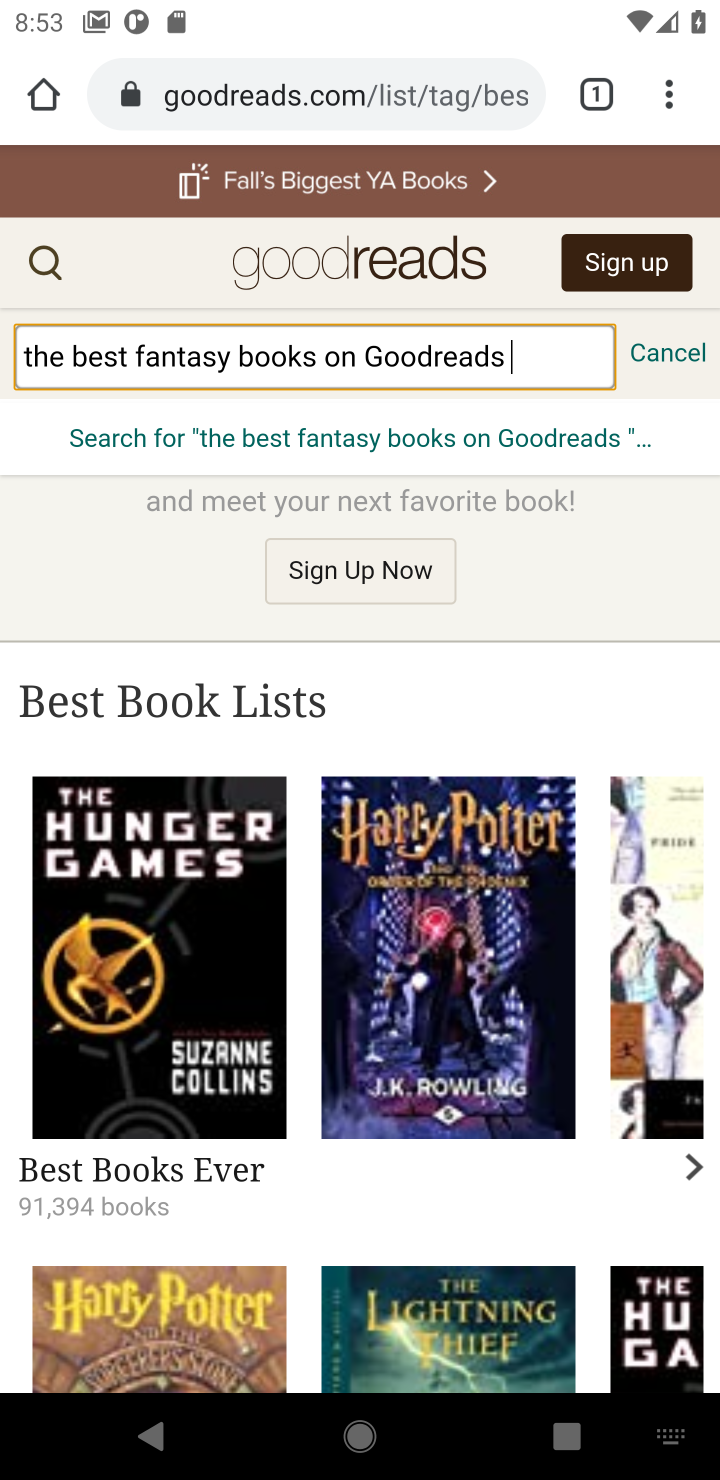
Step 31: click (410, 440)
Your task to perform on an android device: Search for the best fantasy books on Goodreads. Image 32: 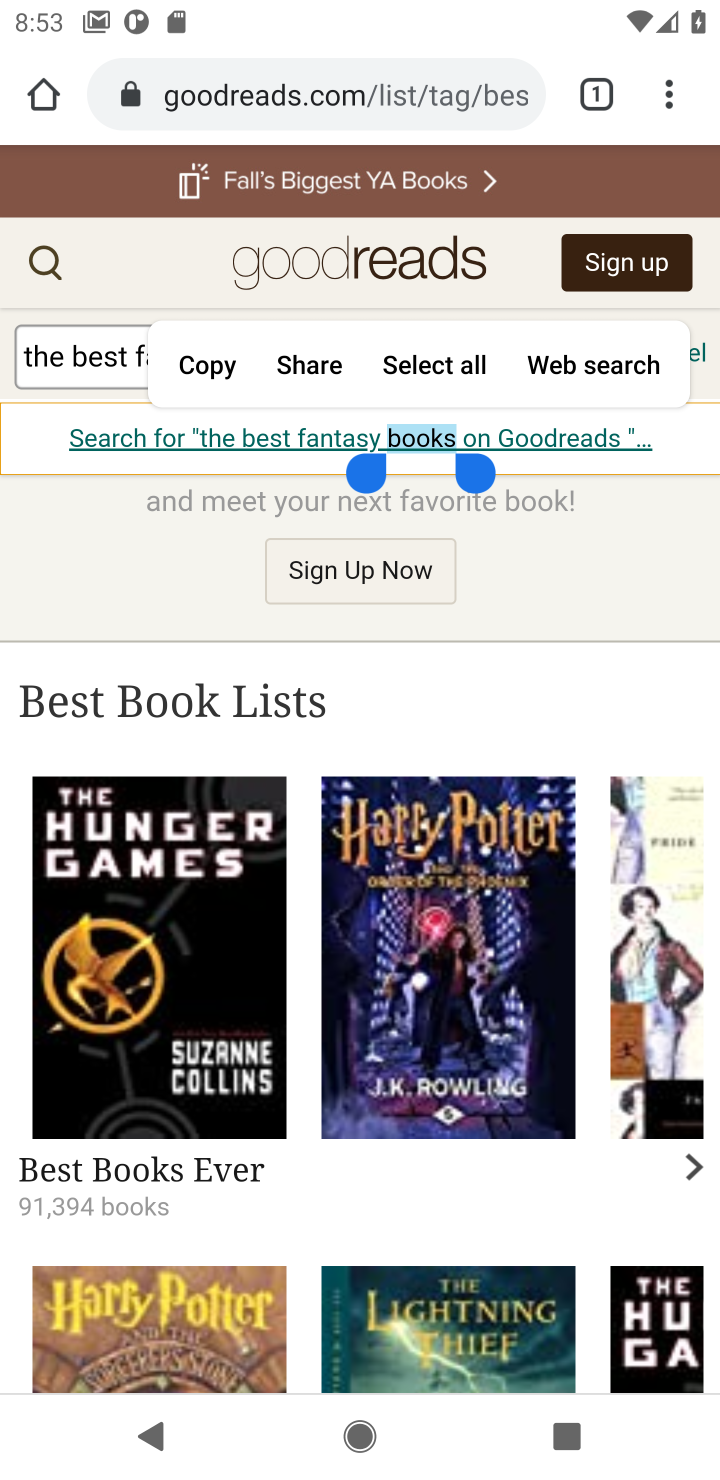
Step 32: click (188, 438)
Your task to perform on an android device: Search for the best fantasy books on Goodreads. Image 33: 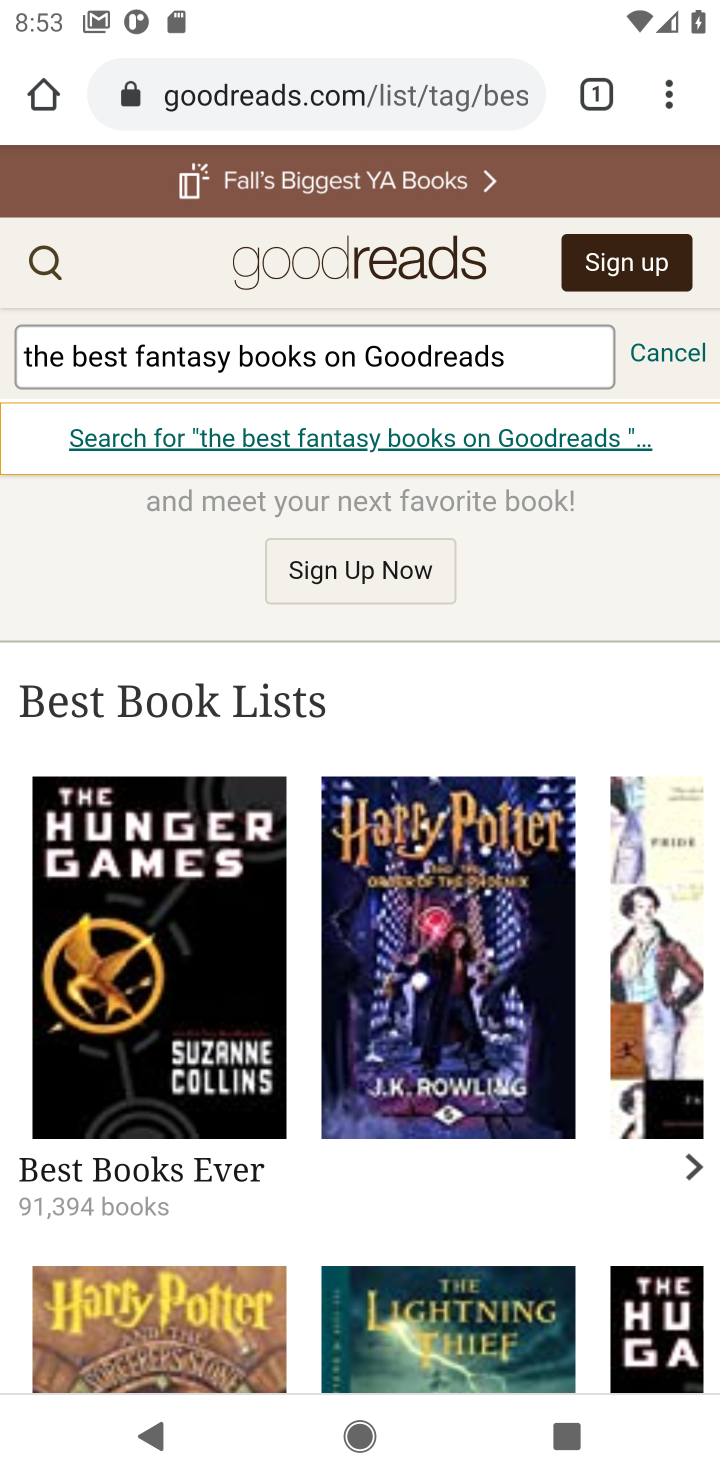
Step 33: click (445, 445)
Your task to perform on an android device: Search for the best fantasy books on Goodreads. Image 34: 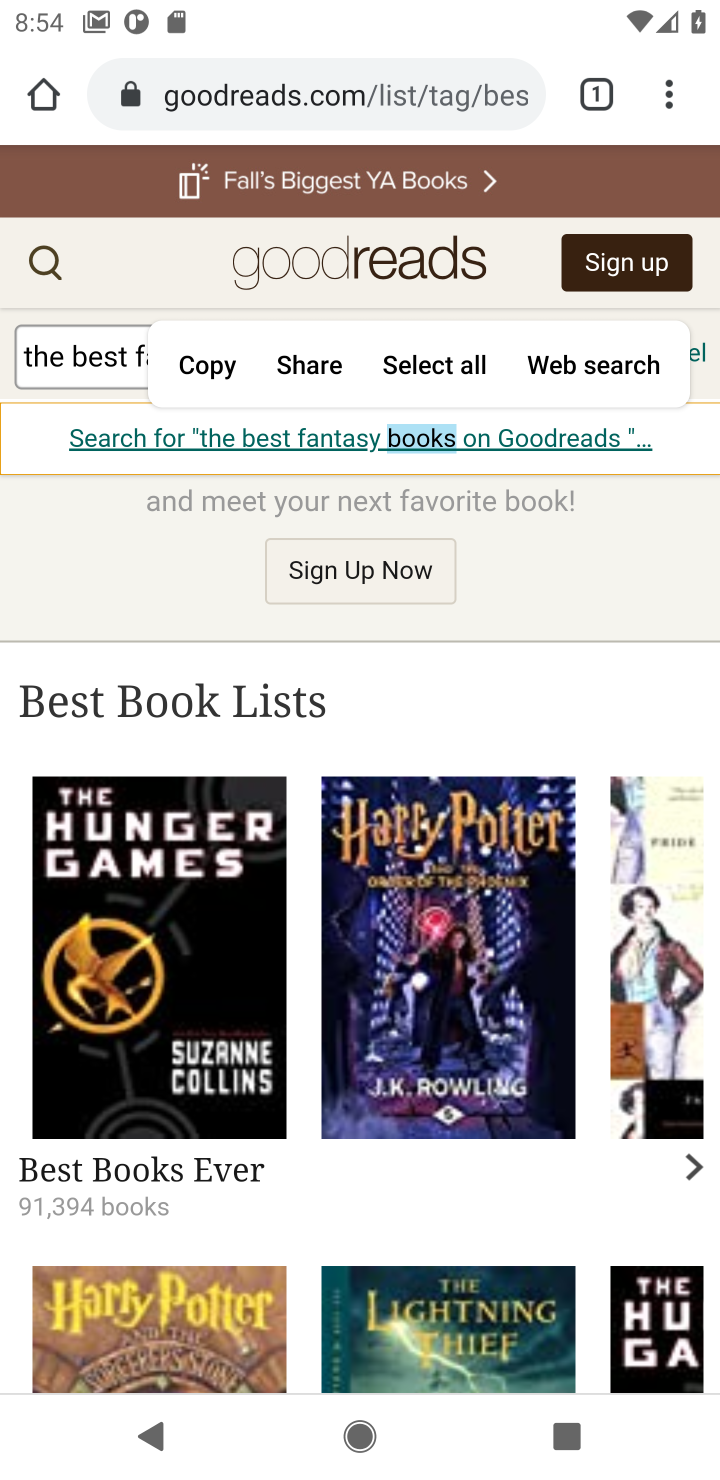
Step 34: drag from (277, 1341) to (368, 766)
Your task to perform on an android device: Search for the best fantasy books on Goodreads. Image 35: 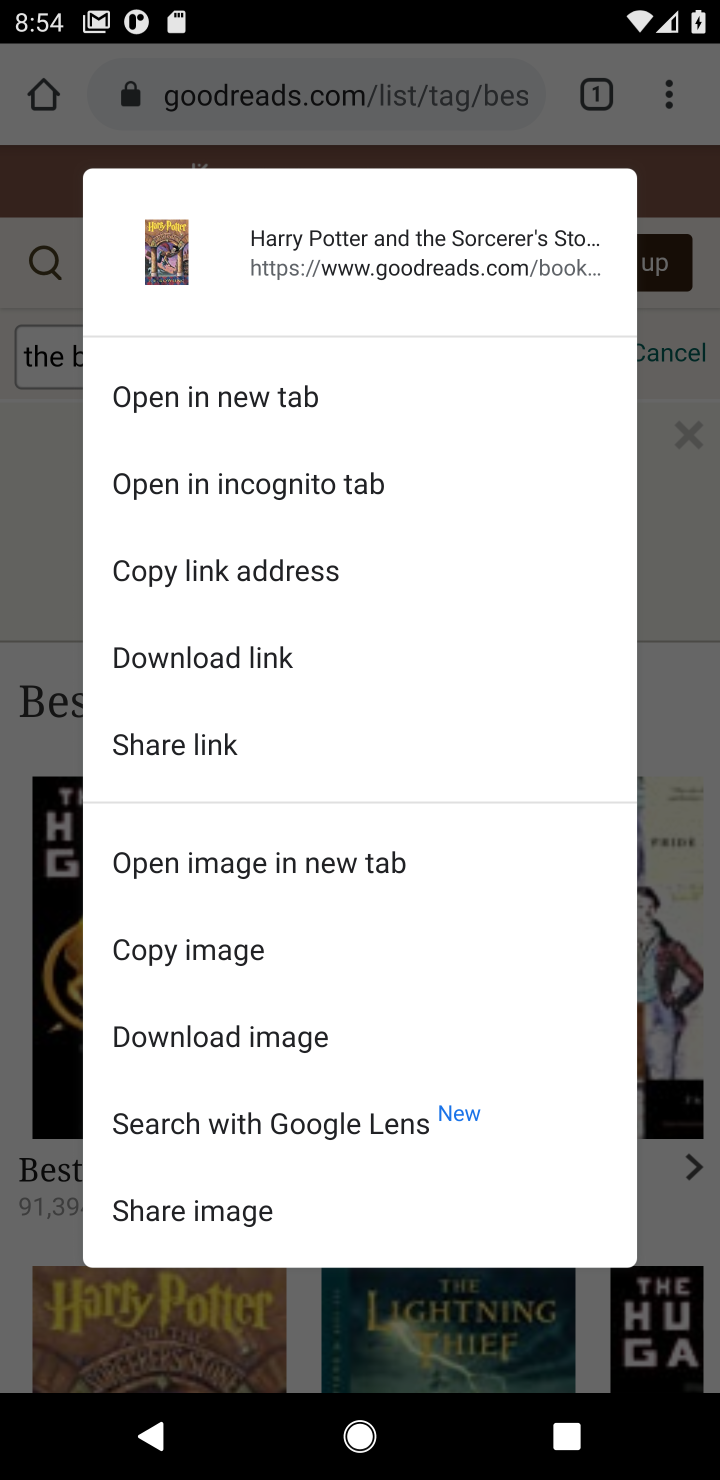
Step 35: click (700, 568)
Your task to perform on an android device: Search for the best fantasy books on Goodreads. Image 36: 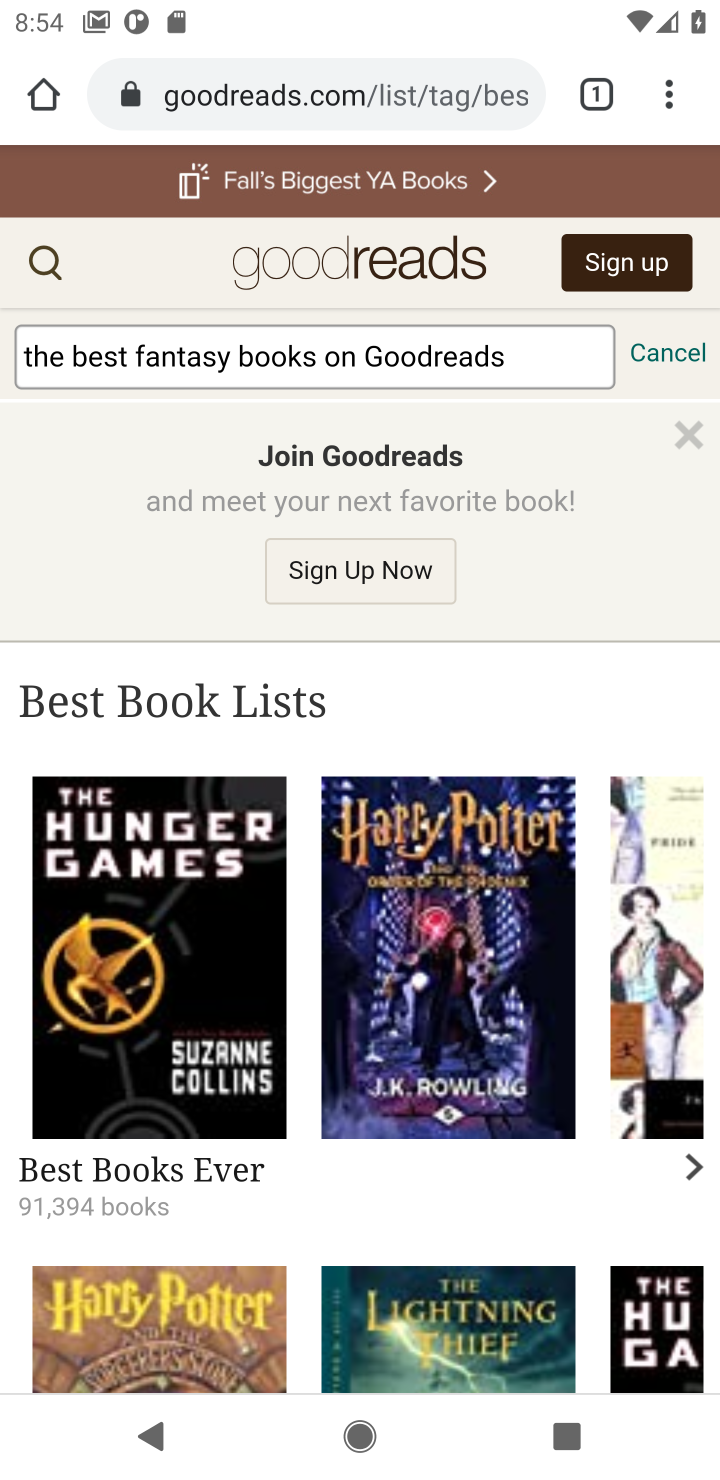
Step 36: task complete